Your task to perform on an android device: Clear the cart on amazon. Add alienware aurora to the cart on amazon Image 0: 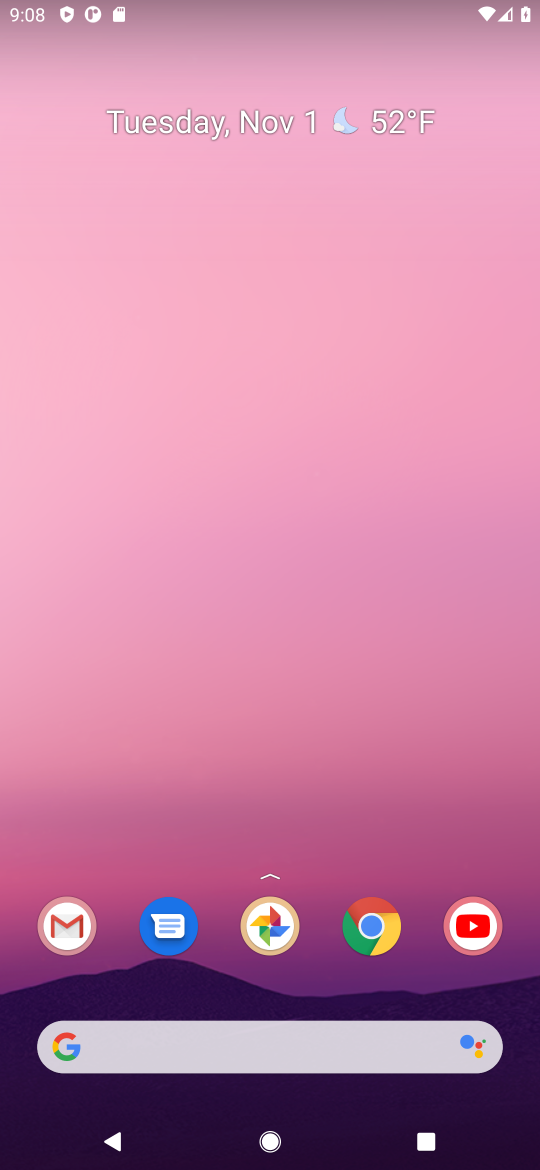
Step 0: click (380, 926)
Your task to perform on an android device: Clear the cart on amazon. Add alienware aurora to the cart on amazon Image 1: 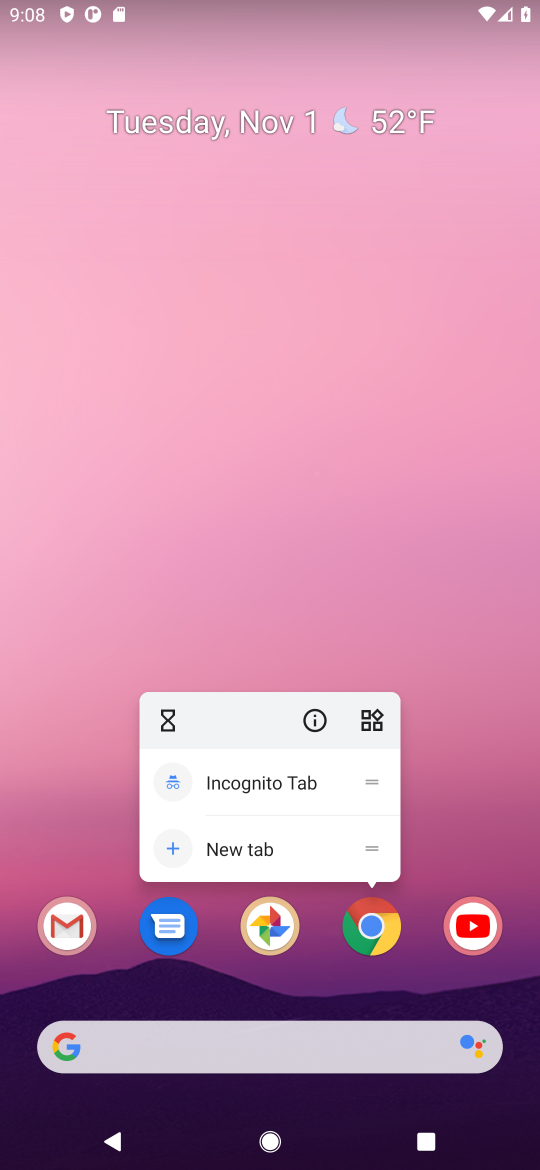
Step 1: click (365, 931)
Your task to perform on an android device: Clear the cart on amazon. Add alienware aurora to the cart on amazon Image 2: 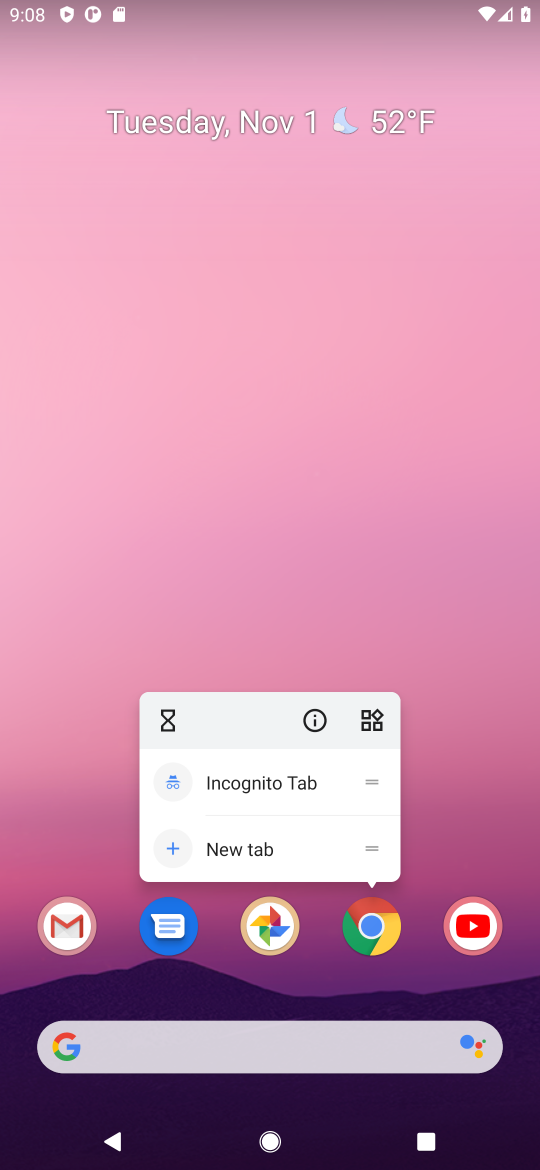
Step 2: click (364, 924)
Your task to perform on an android device: Clear the cart on amazon. Add alienware aurora to the cart on amazon Image 3: 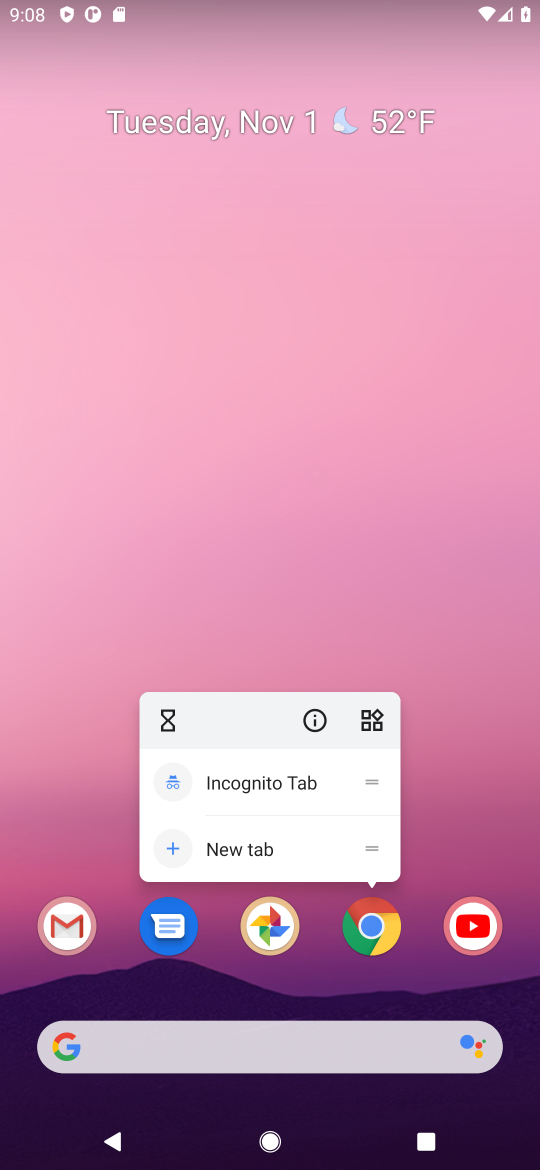
Step 3: click (364, 924)
Your task to perform on an android device: Clear the cart on amazon. Add alienware aurora to the cart on amazon Image 4: 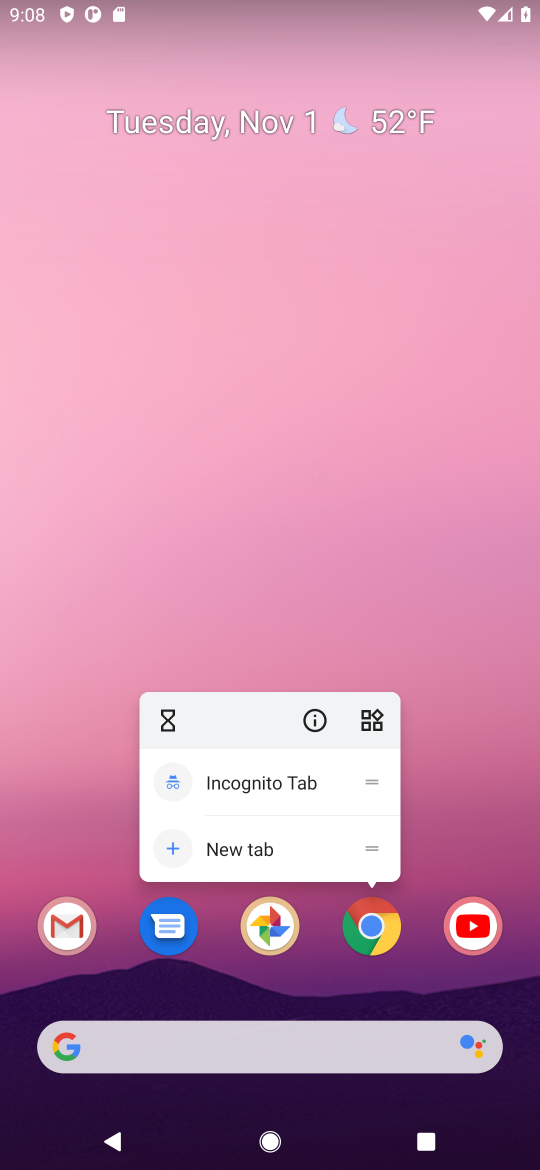
Step 4: press home button
Your task to perform on an android device: Clear the cart on amazon. Add alienware aurora to the cart on amazon Image 5: 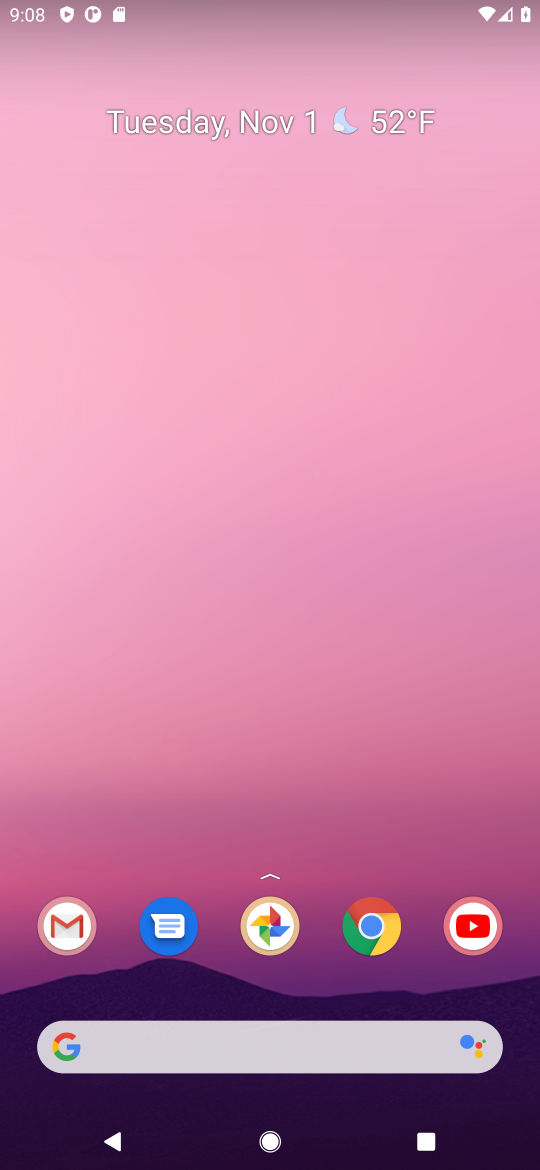
Step 5: press home button
Your task to perform on an android device: Clear the cart on amazon. Add alienware aurora to the cart on amazon Image 6: 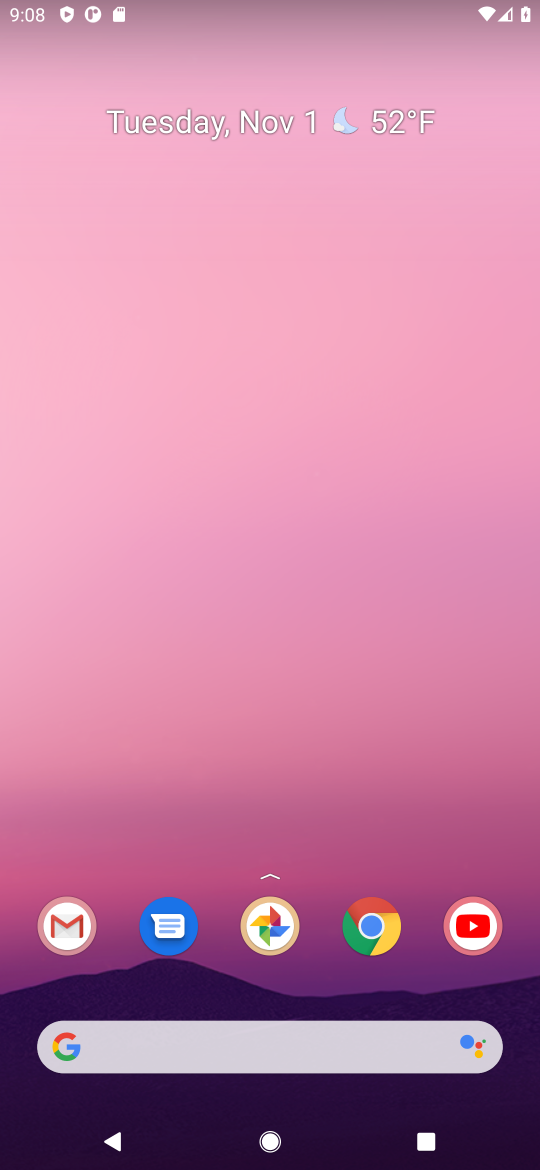
Step 6: press back button
Your task to perform on an android device: Clear the cart on amazon. Add alienware aurora to the cart on amazon Image 7: 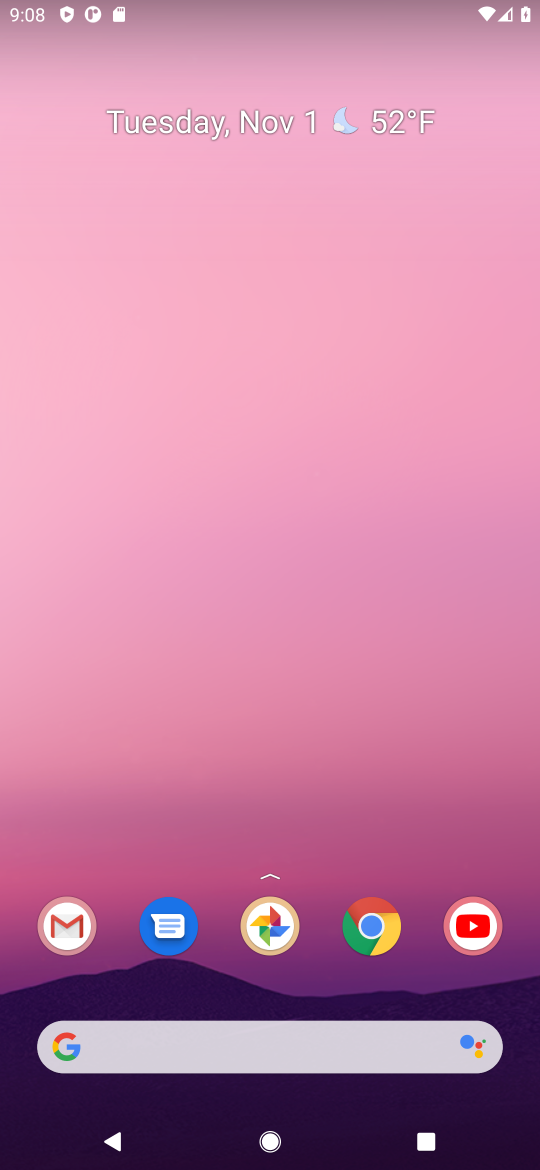
Step 7: press back button
Your task to perform on an android device: Clear the cart on amazon. Add alienware aurora to the cart on amazon Image 8: 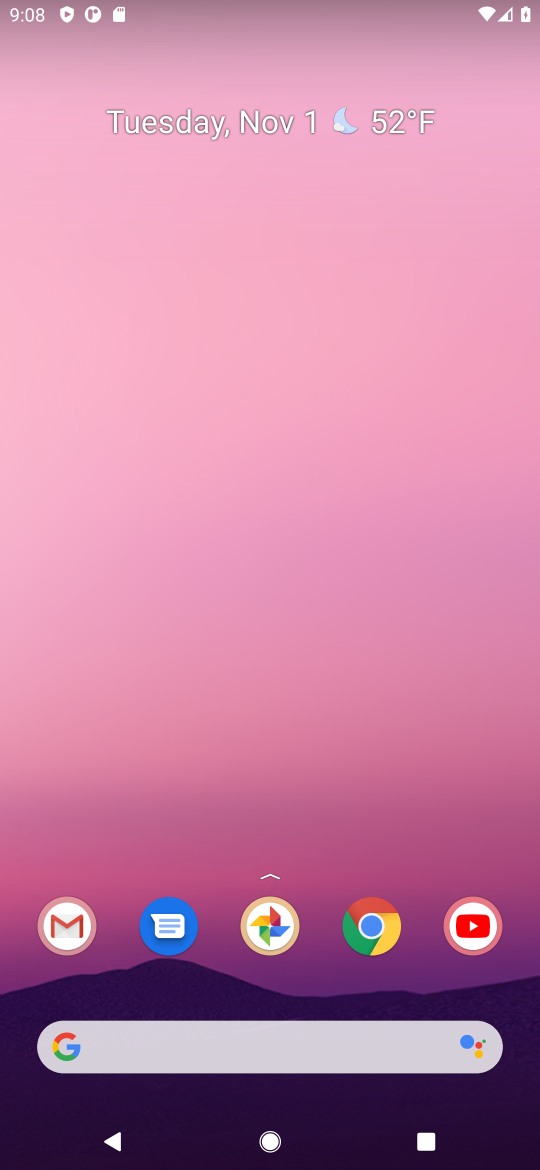
Step 8: press home button
Your task to perform on an android device: Clear the cart on amazon. Add alienware aurora to the cart on amazon Image 9: 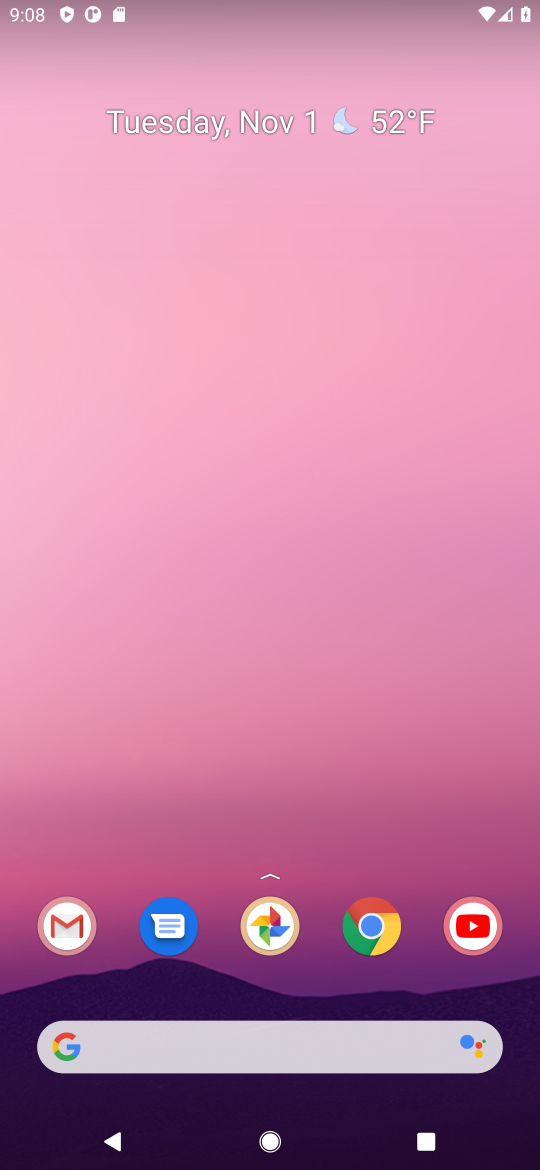
Step 9: press home button
Your task to perform on an android device: Clear the cart on amazon. Add alienware aurora to the cart on amazon Image 10: 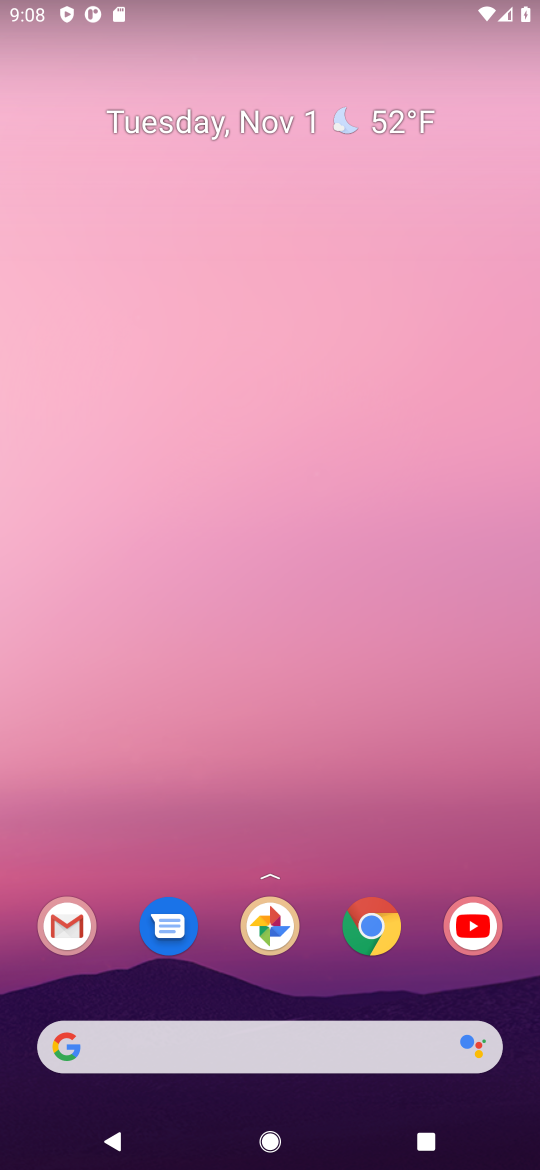
Step 10: click (383, 941)
Your task to perform on an android device: Clear the cart on amazon. Add alienware aurora to the cart on amazon Image 11: 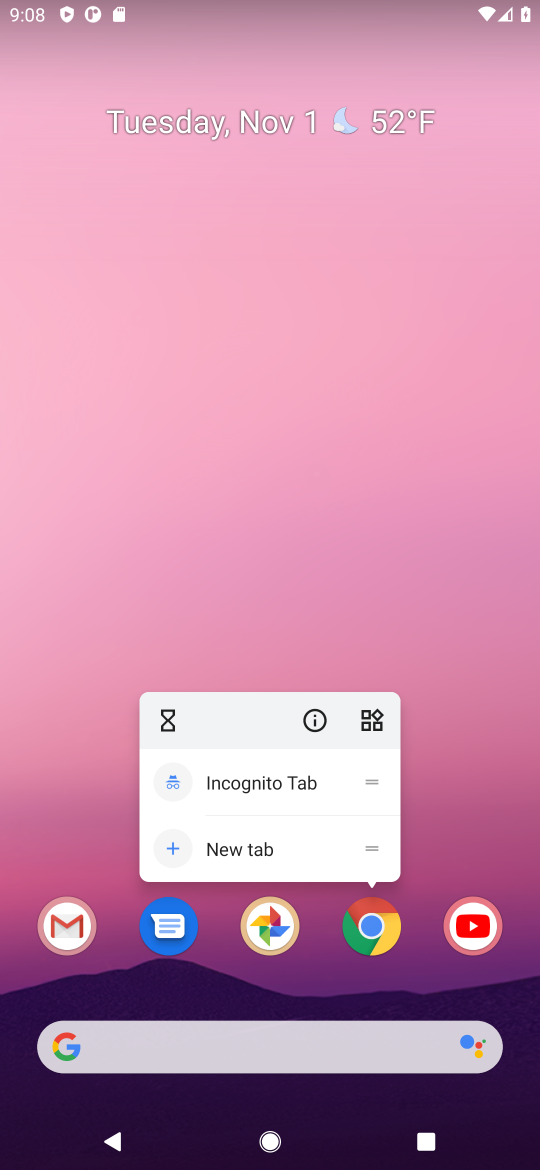
Step 11: click (364, 901)
Your task to perform on an android device: Clear the cart on amazon. Add alienware aurora to the cart on amazon Image 12: 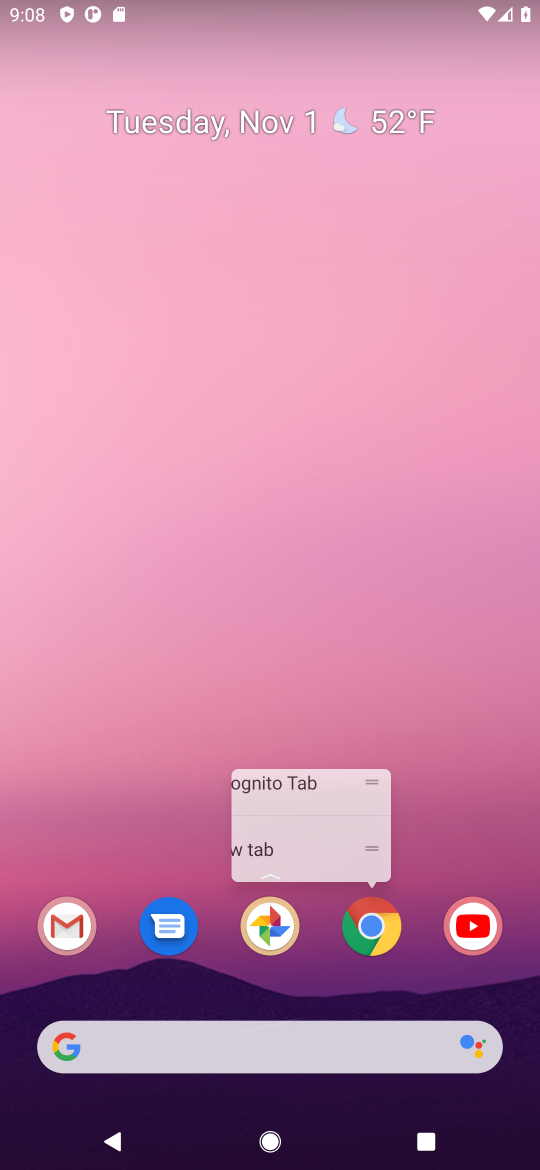
Step 12: click (368, 916)
Your task to perform on an android device: Clear the cart on amazon. Add alienware aurora to the cart on amazon Image 13: 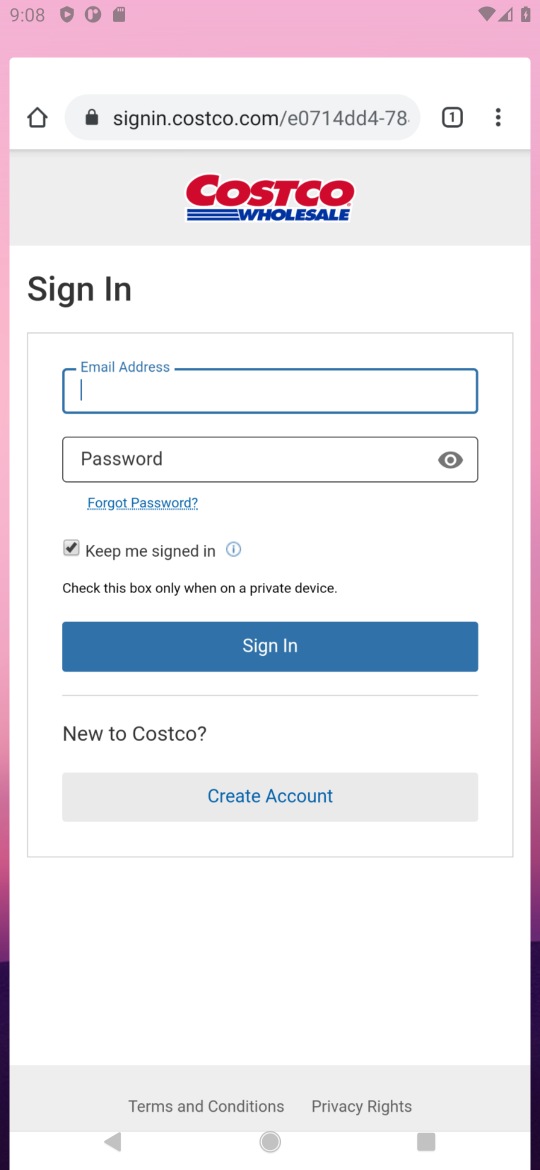
Step 13: click (372, 953)
Your task to perform on an android device: Clear the cart on amazon. Add alienware aurora to the cart on amazon Image 14: 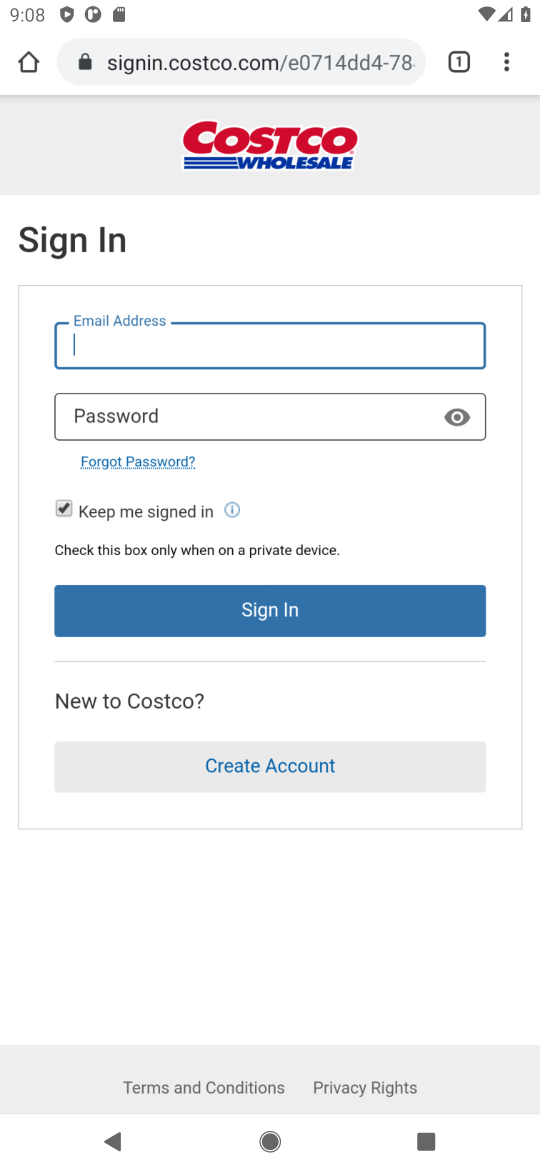
Step 14: click (374, 953)
Your task to perform on an android device: Clear the cart on amazon. Add alienware aurora to the cart on amazon Image 15: 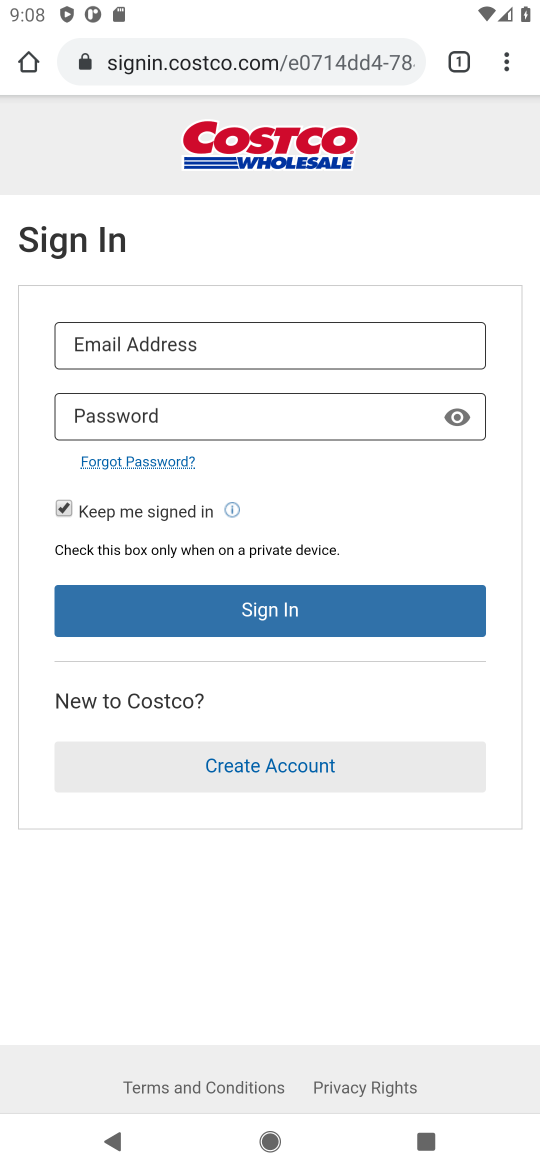
Step 15: click (159, 63)
Your task to perform on an android device: Clear the cart on amazon. Add alienware aurora to the cart on amazon Image 16: 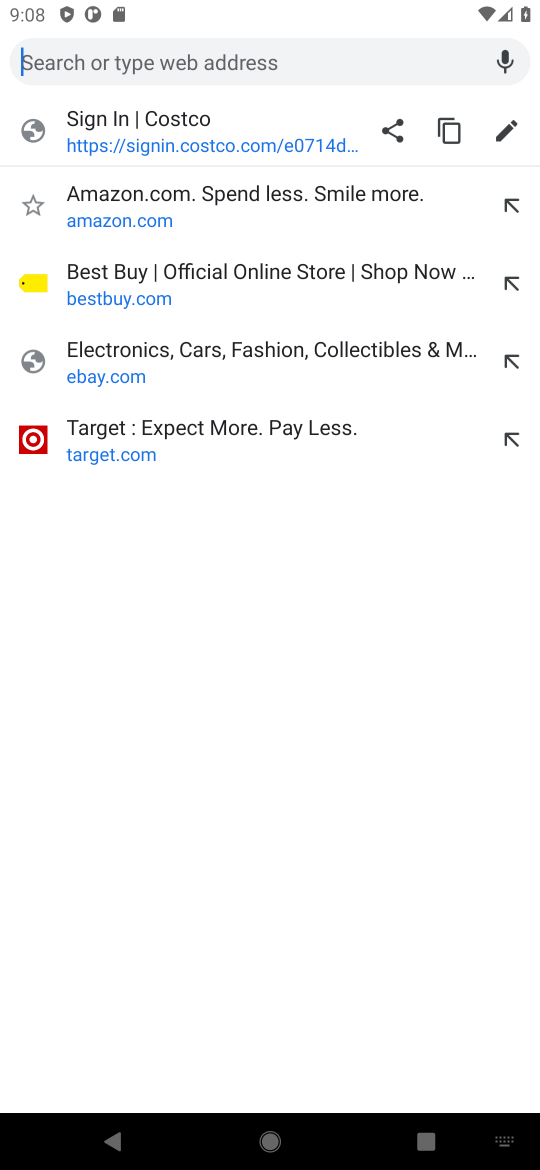
Step 16: click (158, 219)
Your task to perform on an android device: Clear the cart on amazon. Add alienware aurora to the cart on amazon Image 17: 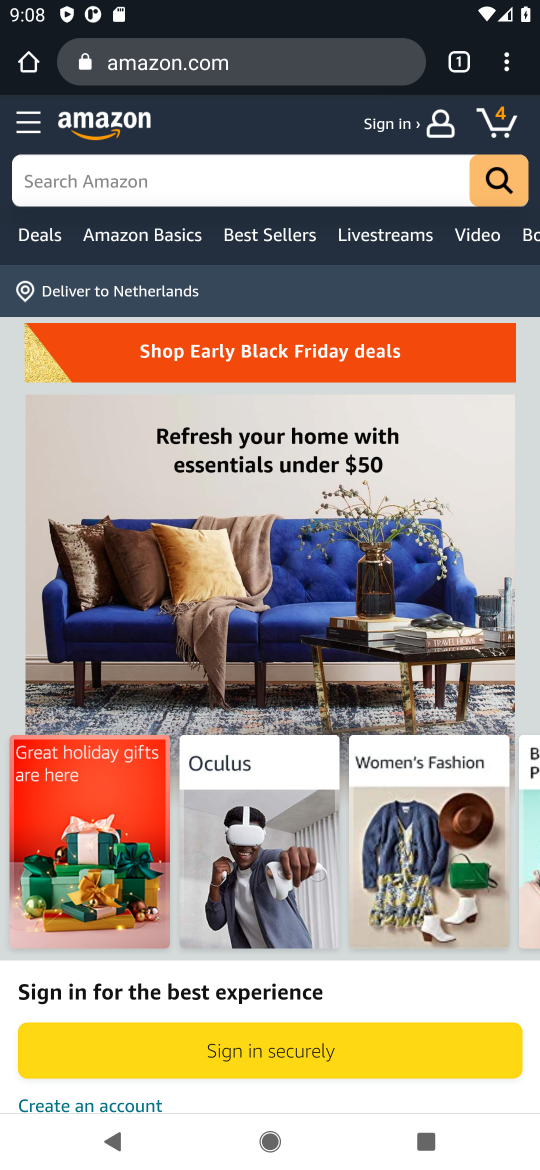
Step 17: click (122, 161)
Your task to perform on an android device: Clear the cart on amazon. Add alienware aurora to the cart on amazon Image 18: 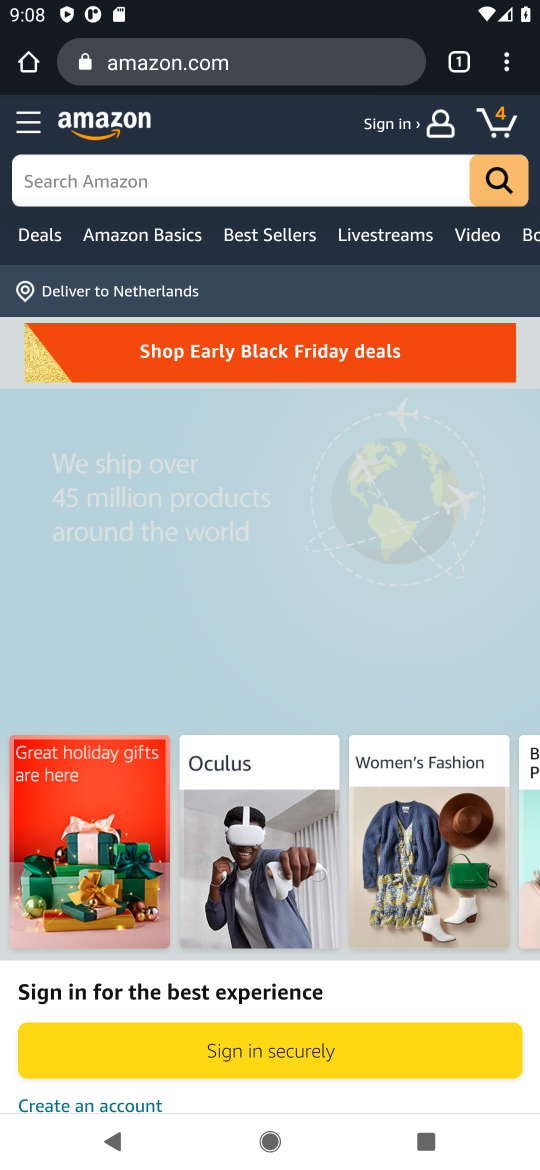
Step 18: click (122, 182)
Your task to perform on an android device: Clear the cart on amazon. Add alienware aurora to the cart on amazon Image 19: 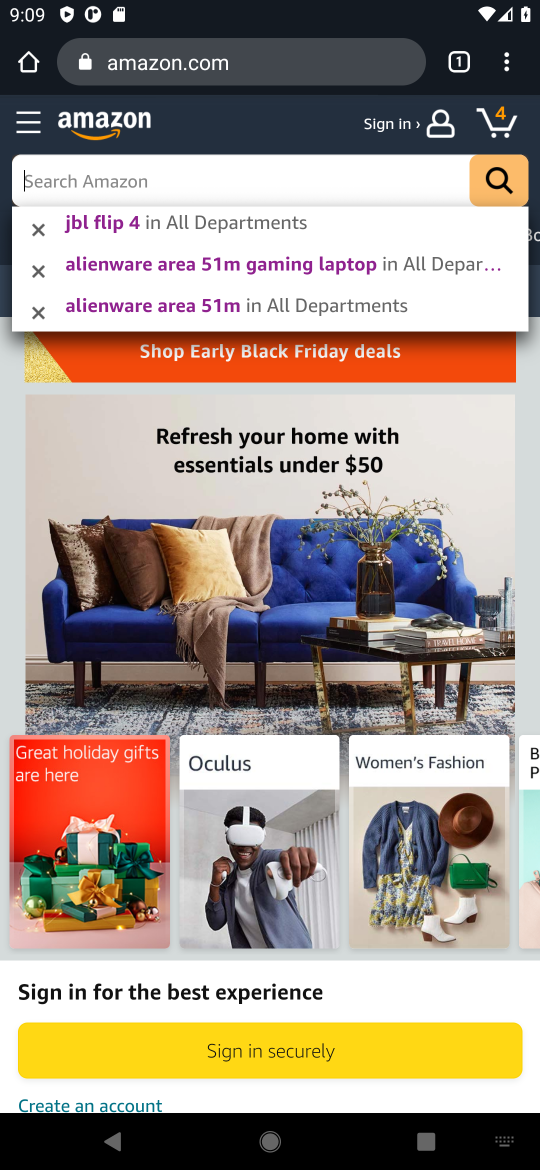
Step 19: type "alienware aurora"
Your task to perform on an android device: Clear the cart on amazon. Add alienware aurora to the cart on amazon Image 20: 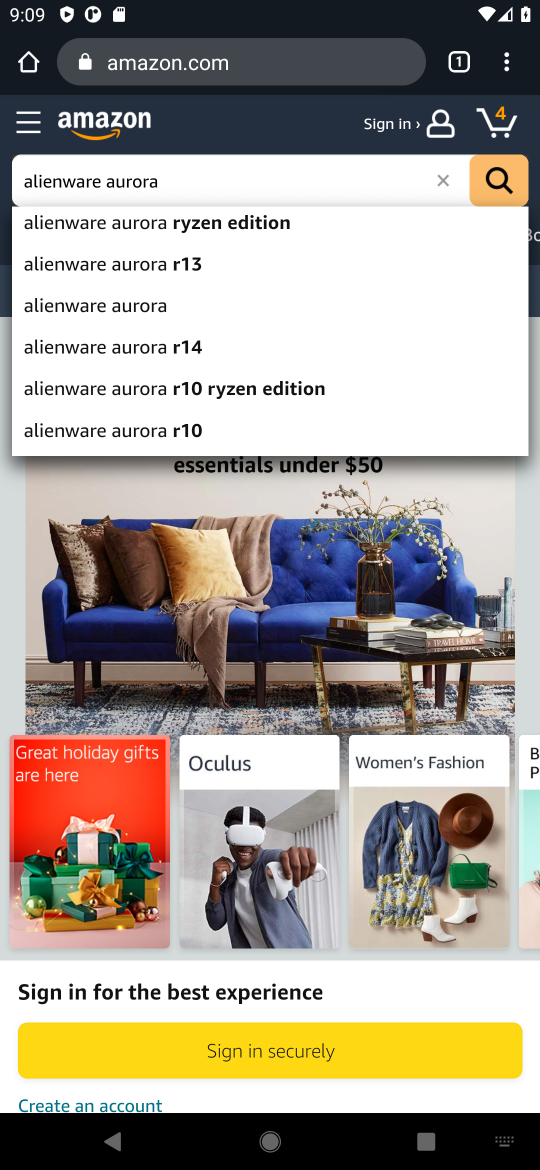
Step 20: click (114, 271)
Your task to perform on an android device: Clear the cart on amazon. Add alienware aurora to the cart on amazon Image 21: 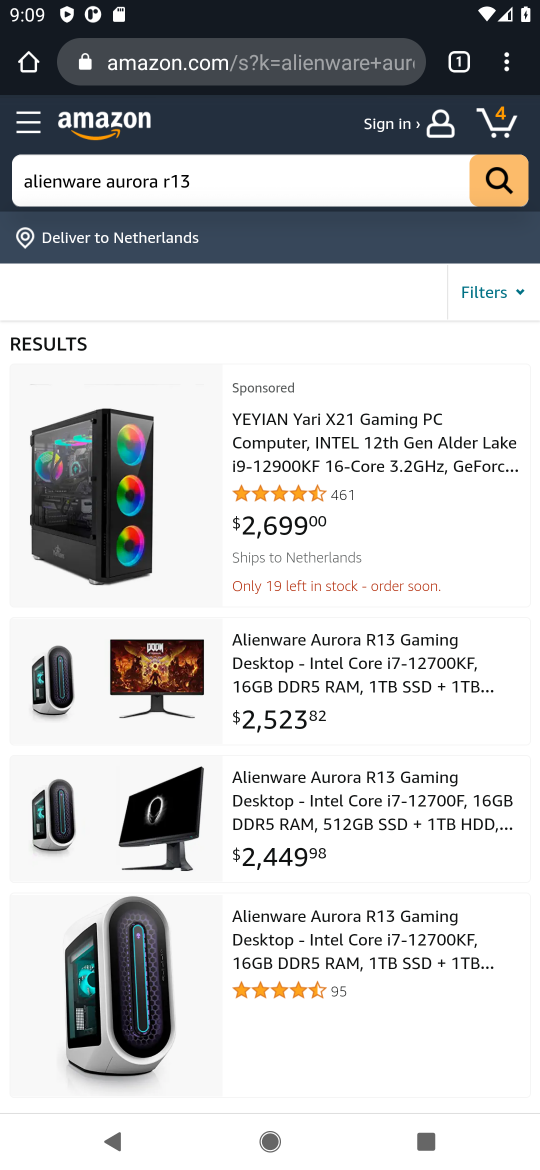
Step 21: click (340, 698)
Your task to perform on an android device: Clear the cart on amazon. Add alienware aurora to the cart on amazon Image 22: 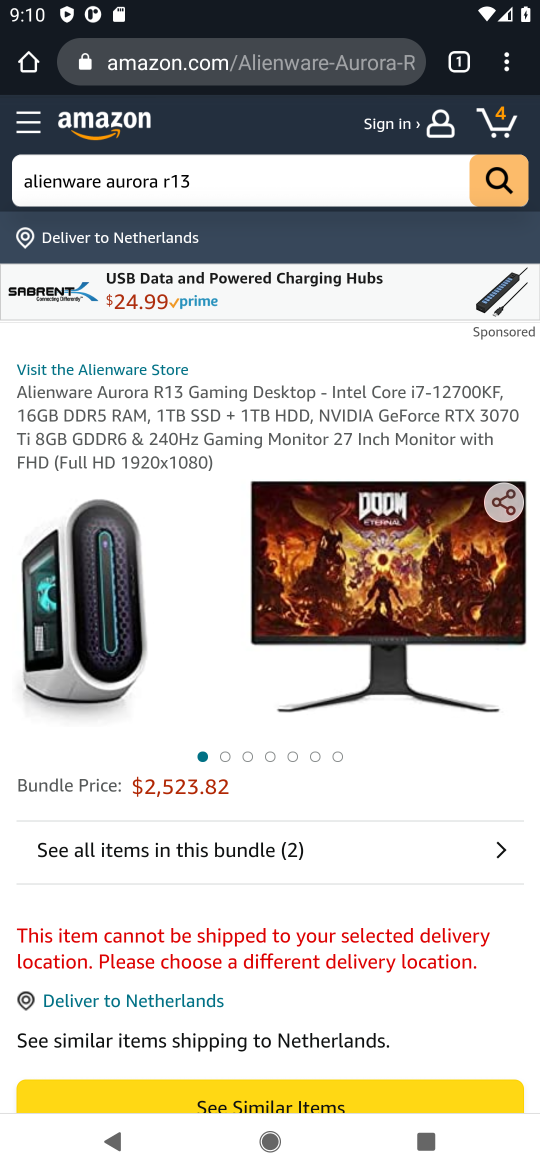
Step 22: drag from (178, 798) to (199, 444)
Your task to perform on an android device: Clear the cart on amazon. Add alienware aurora to the cart on amazon Image 23: 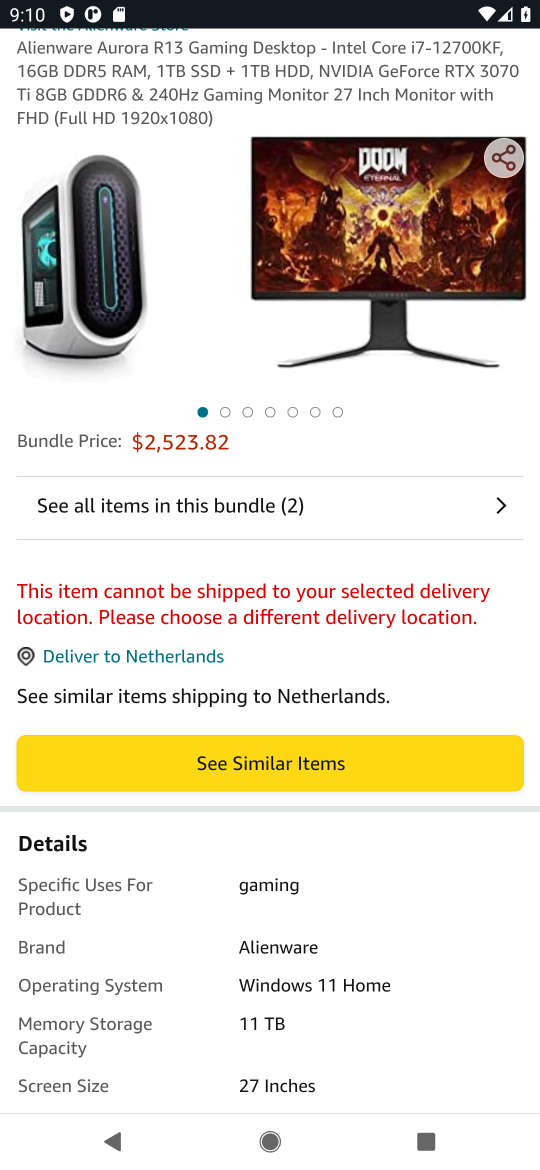
Step 23: drag from (333, 938) to (336, 528)
Your task to perform on an android device: Clear the cart on amazon. Add alienware aurora to the cart on amazon Image 24: 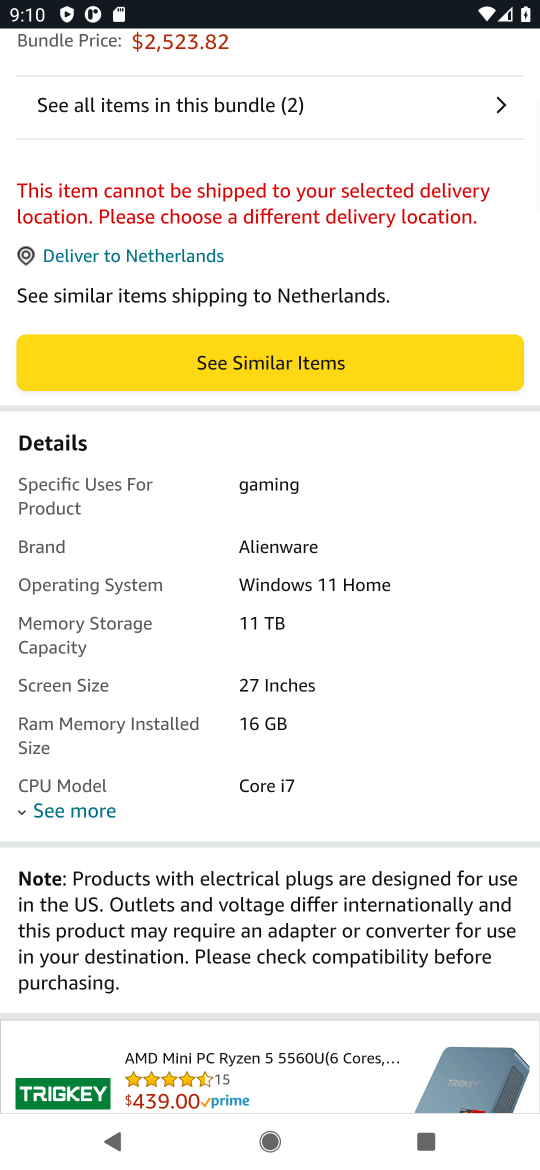
Step 24: drag from (389, 884) to (409, 428)
Your task to perform on an android device: Clear the cart on amazon. Add alienware aurora to the cart on amazon Image 25: 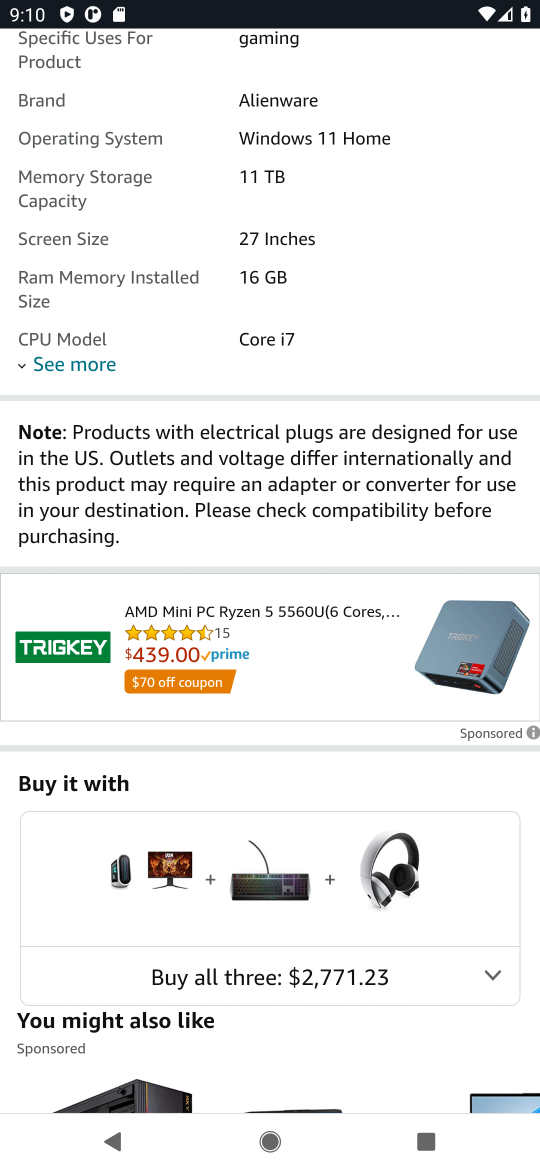
Step 25: drag from (344, 904) to (237, 373)
Your task to perform on an android device: Clear the cart on amazon. Add alienware aurora to the cart on amazon Image 26: 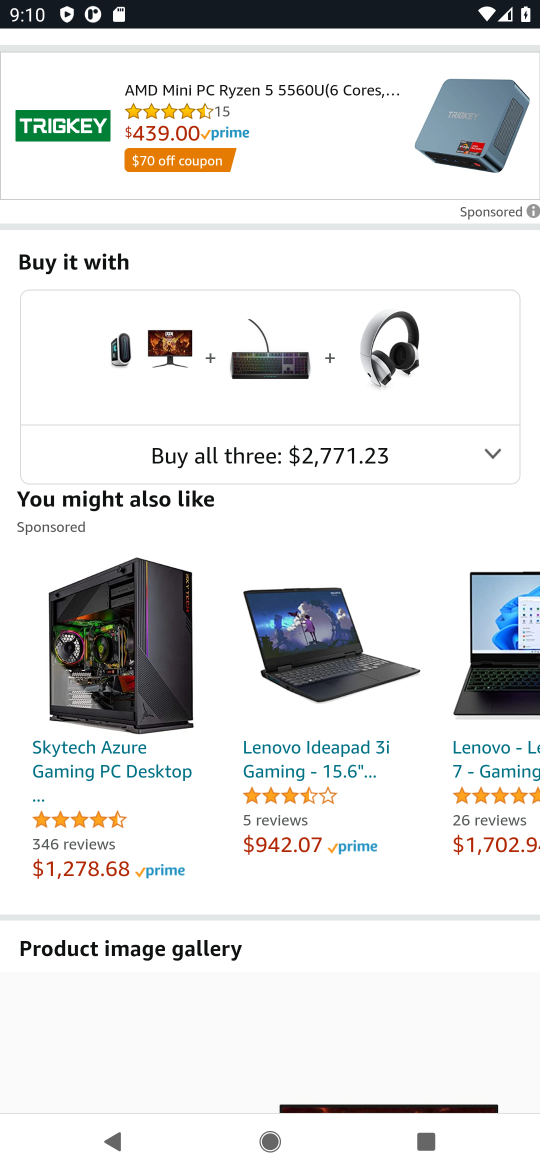
Step 26: drag from (243, 836) to (242, 580)
Your task to perform on an android device: Clear the cart on amazon. Add alienware aurora to the cart on amazon Image 27: 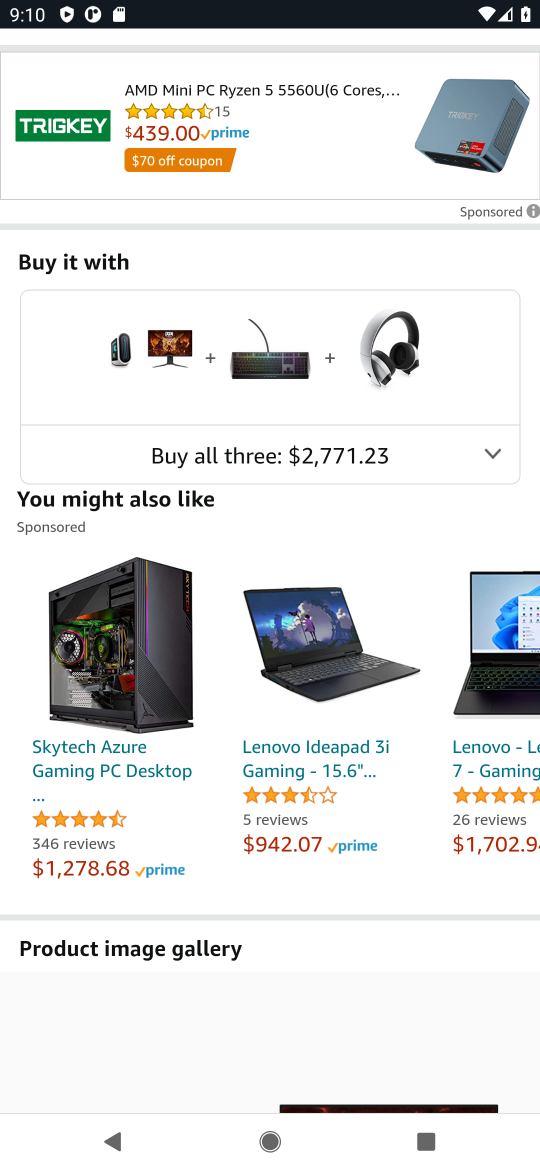
Step 27: drag from (273, 436) to (242, 833)
Your task to perform on an android device: Clear the cart on amazon. Add alienware aurora to the cart on amazon Image 28: 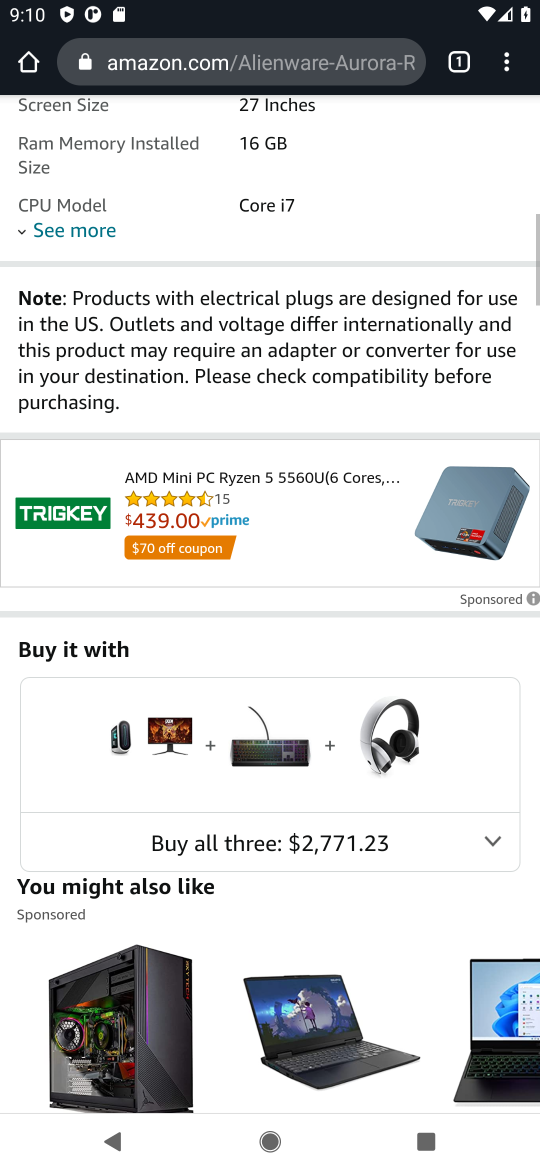
Step 28: drag from (133, 605) to (118, 902)
Your task to perform on an android device: Clear the cart on amazon. Add alienware aurora to the cart on amazon Image 29: 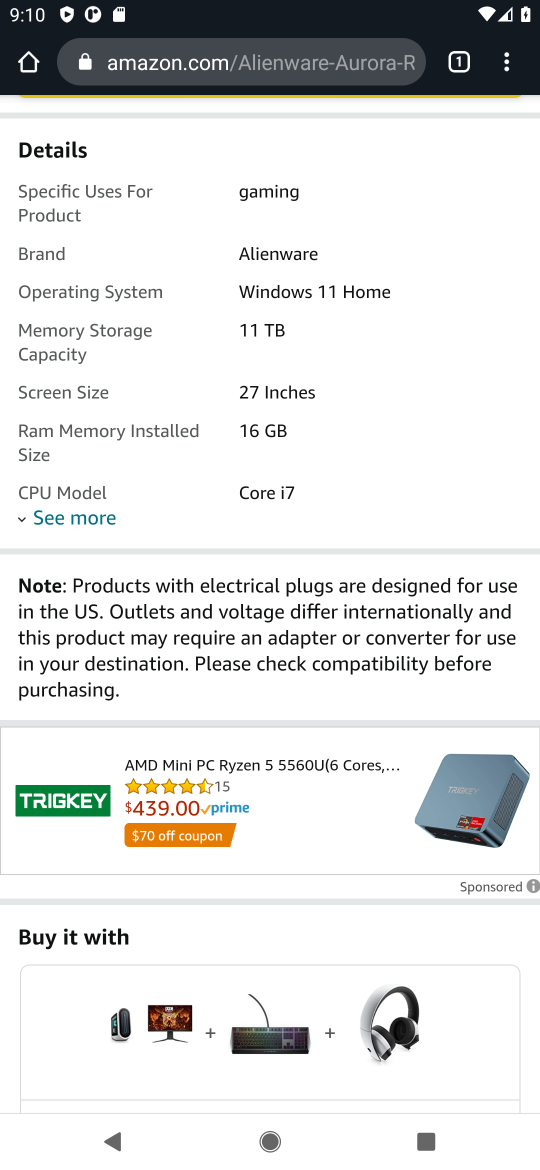
Step 29: drag from (214, 432) to (18, 1001)
Your task to perform on an android device: Clear the cart on amazon. Add alienware aurora to the cart on amazon Image 30: 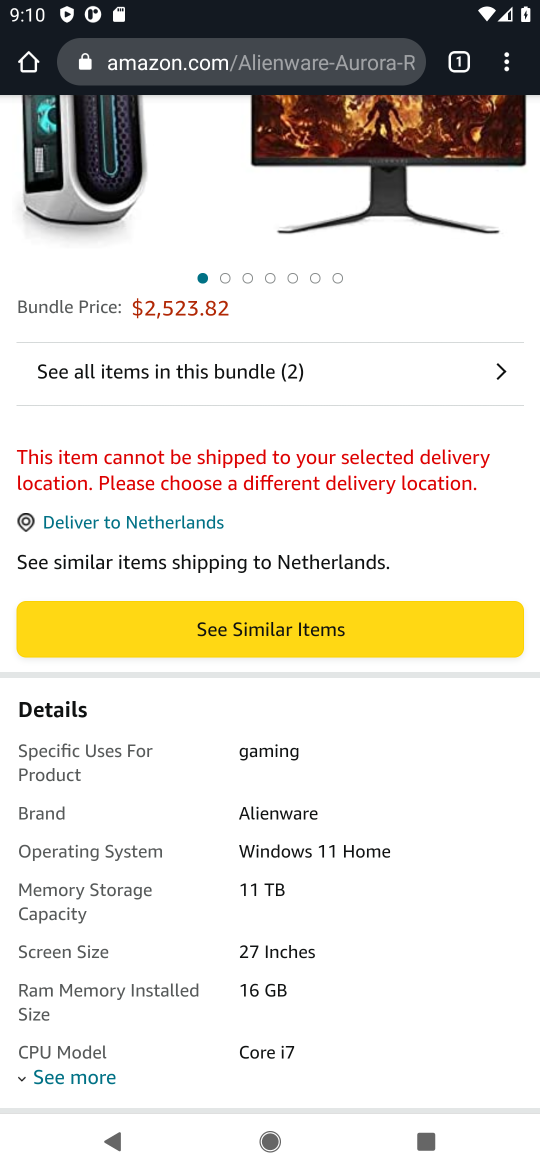
Step 30: drag from (285, 571) to (179, 1000)
Your task to perform on an android device: Clear the cart on amazon. Add alienware aurora to the cart on amazon Image 31: 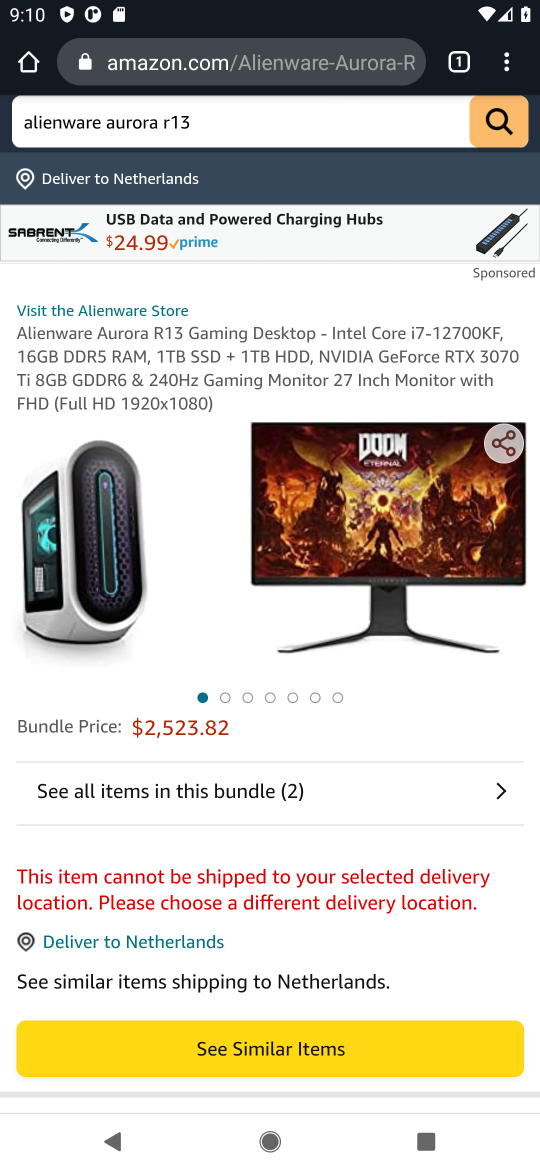
Step 31: click (271, 718)
Your task to perform on an android device: Clear the cart on amazon. Add alienware aurora to the cart on amazon Image 32: 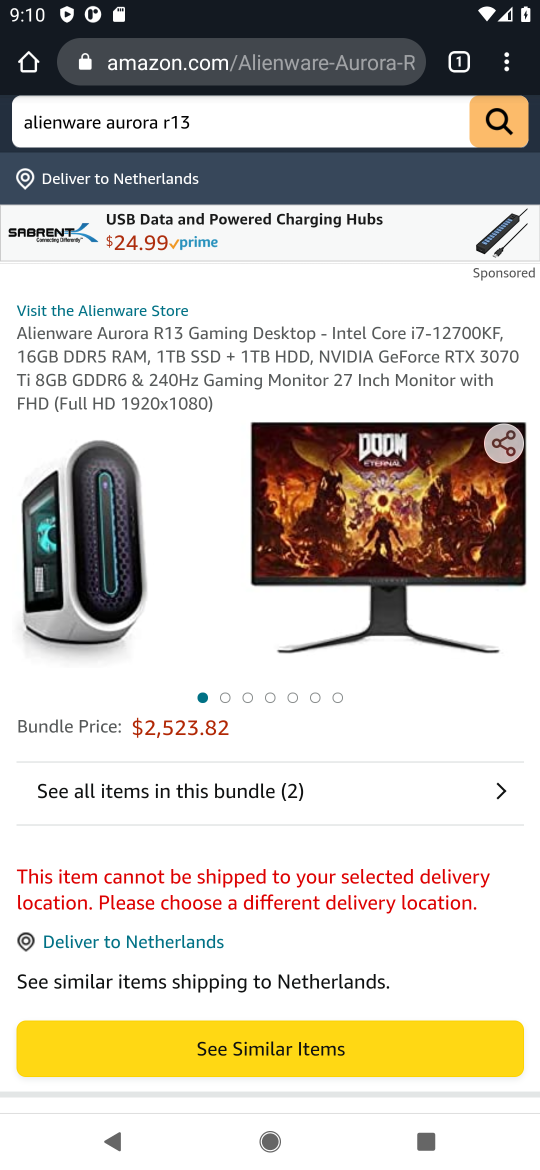
Step 32: click (269, 1042)
Your task to perform on an android device: Clear the cart on amazon. Add alienware aurora to the cart on amazon Image 33: 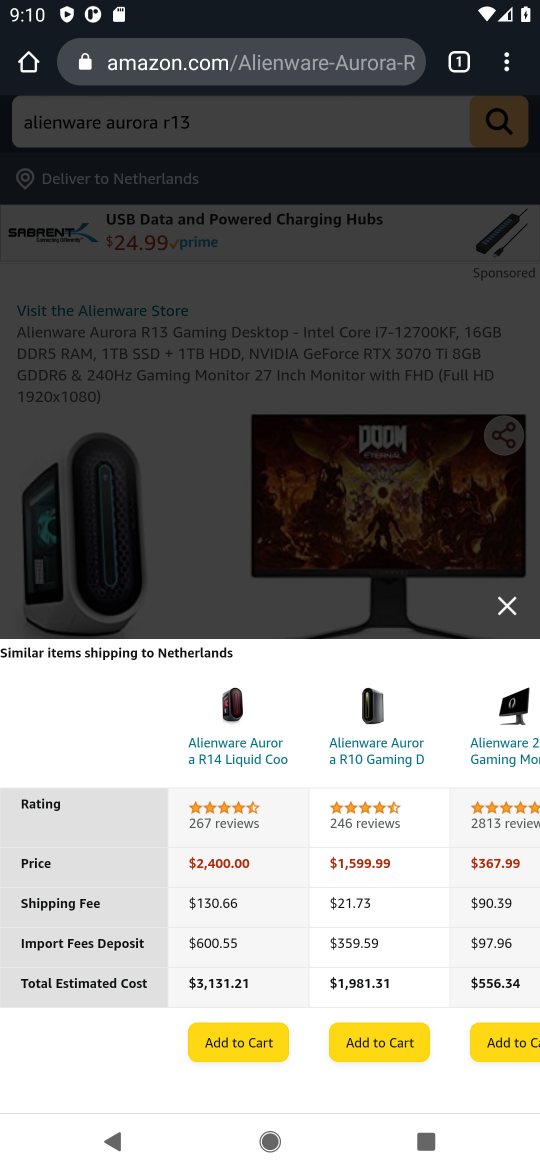
Step 33: click (506, 614)
Your task to perform on an android device: Clear the cart on amazon. Add alienware aurora to the cart on amazon Image 34: 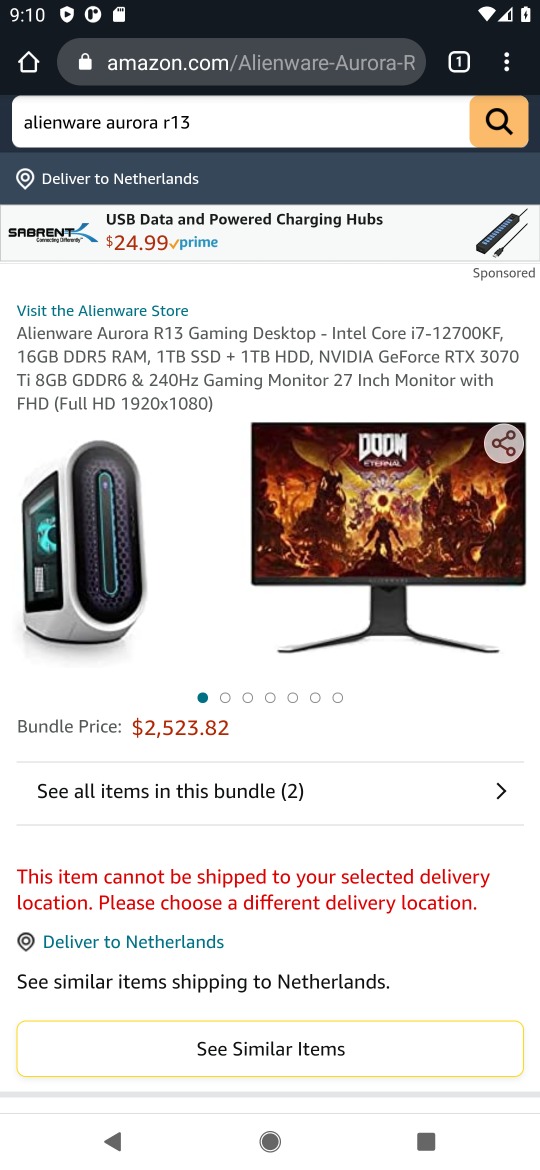
Step 34: click (502, 763)
Your task to perform on an android device: Clear the cart on amazon. Add alienware aurora to the cart on amazon Image 35: 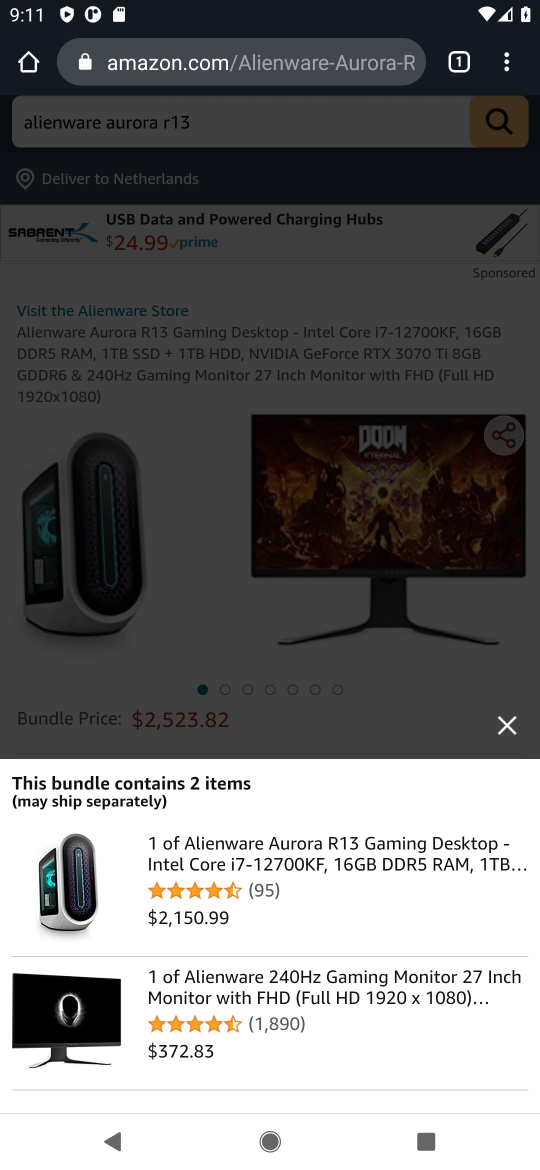
Step 35: click (253, 844)
Your task to perform on an android device: Clear the cart on amazon. Add alienware aurora to the cart on amazon Image 36: 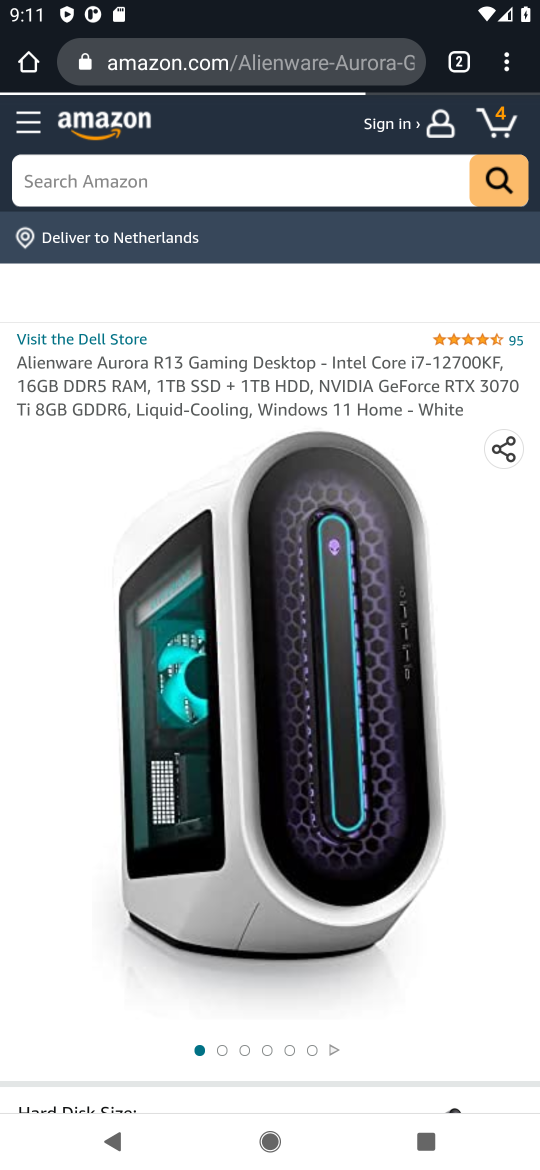
Step 36: drag from (175, 873) to (170, 324)
Your task to perform on an android device: Clear the cart on amazon. Add alienware aurora to the cart on amazon Image 37: 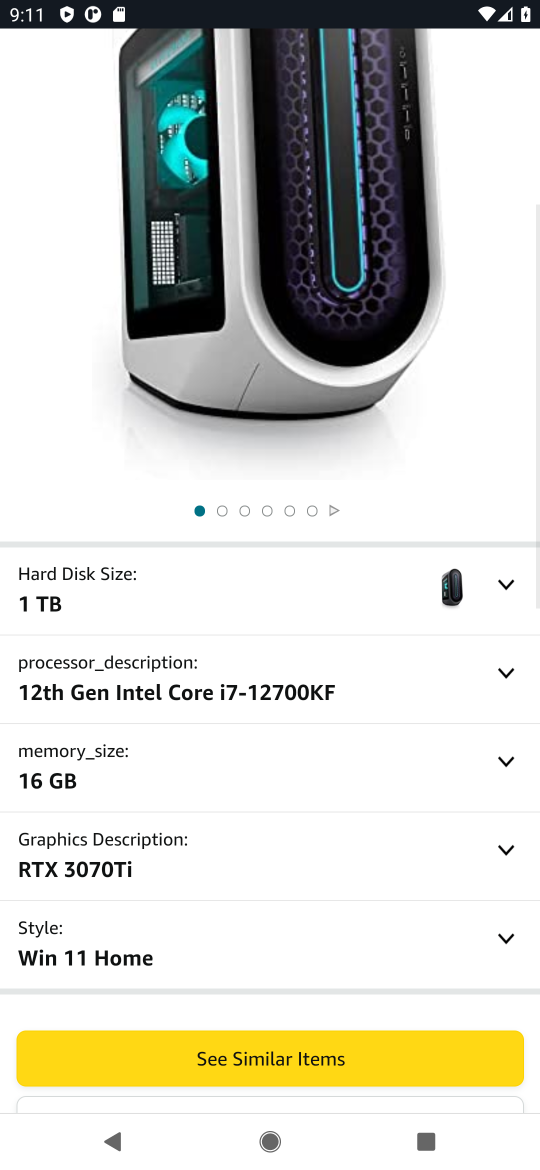
Step 37: drag from (257, 863) to (264, 565)
Your task to perform on an android device: Clear the cart on amazon. Add alienware aurora to the cart on amazon Image 38: 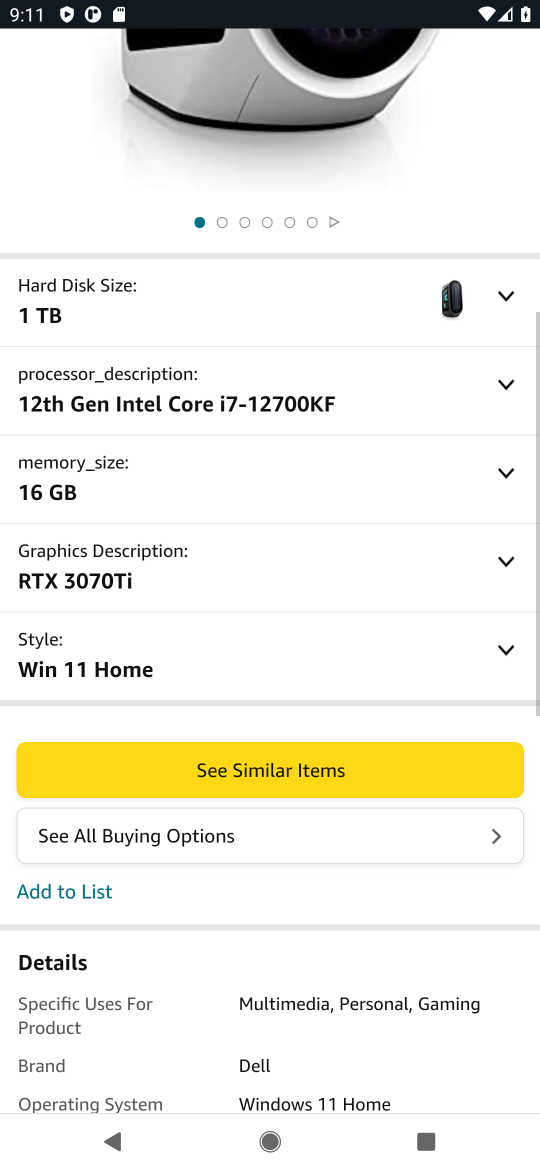
Step 38: drag from (252, 906) to (250, 721)
Your task to perform on an android device: Clear the cart on amazon. Add alienware aurora to the cart on amazon Image 39: 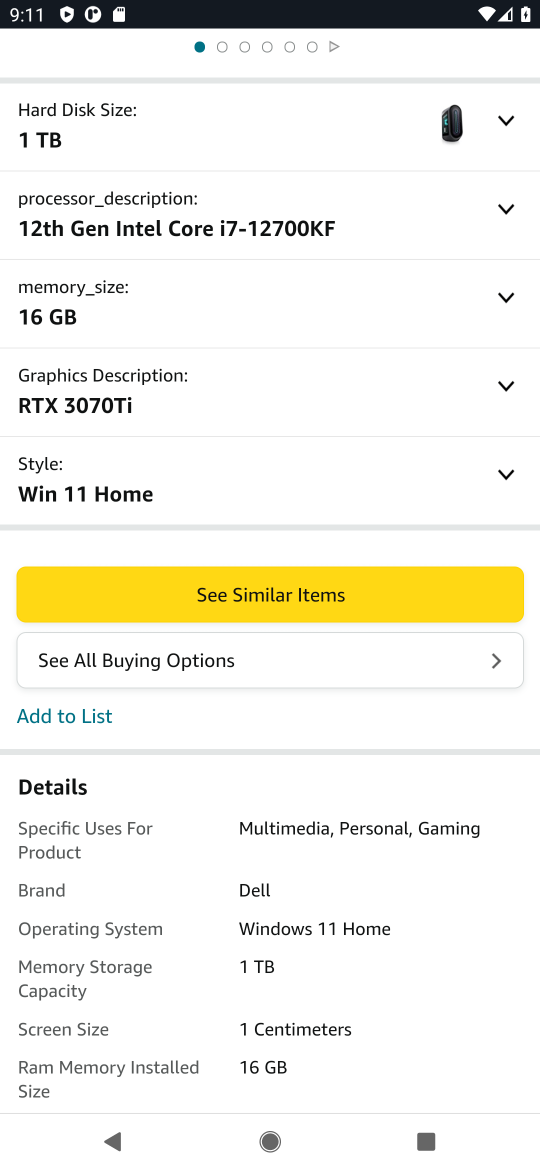
Step 39: drag from (189, 921) to (256, 569)
Your task to perform on an android device: Clear the cart on amazon. Add alienware aurora to the cart on amazon Image 40: 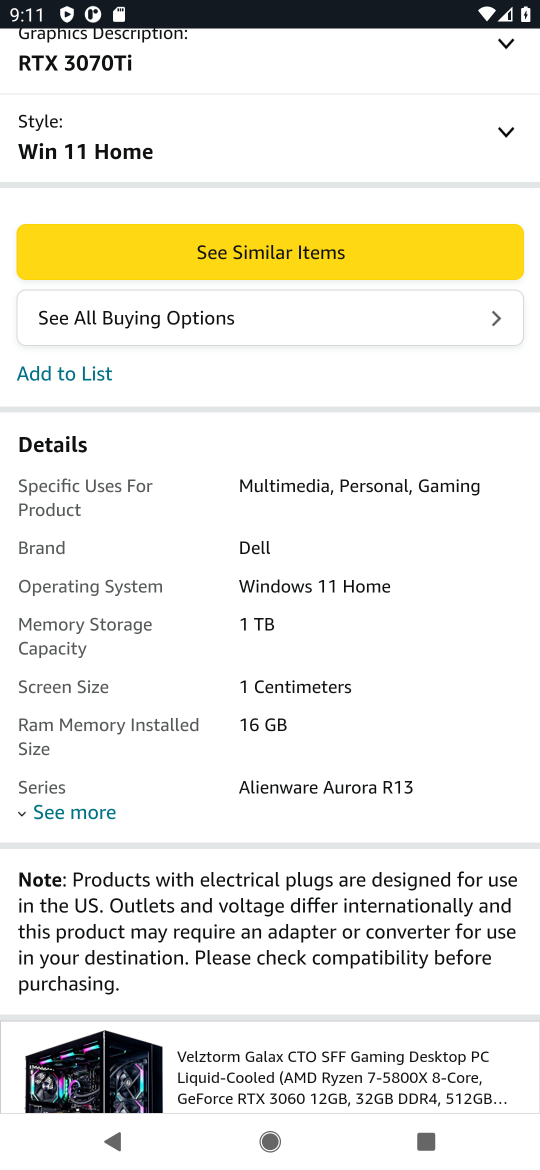
Step 40: drag from (273, 894) to (283, 454)
Your task to perform on an android device: Clear the cart on amazon. Add alienware aurora to the cart on amazon Image 41: 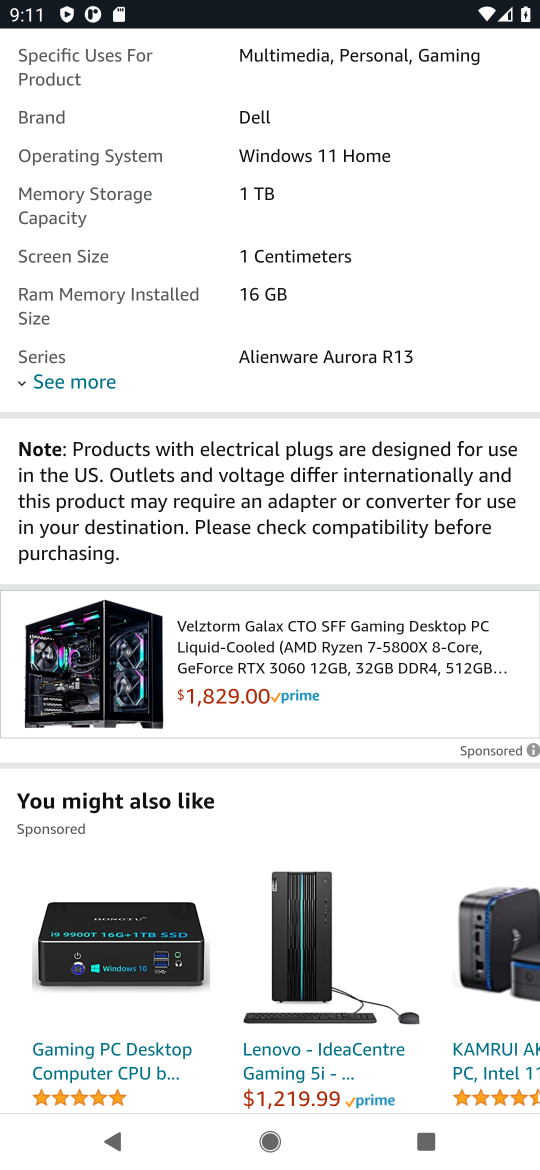
Step 41: drag from (301, 324) to (282, 775)
Your task to perform on an android device: Clear the cart on amazon. Add alienware aurora to the cart on amazon Image 42: 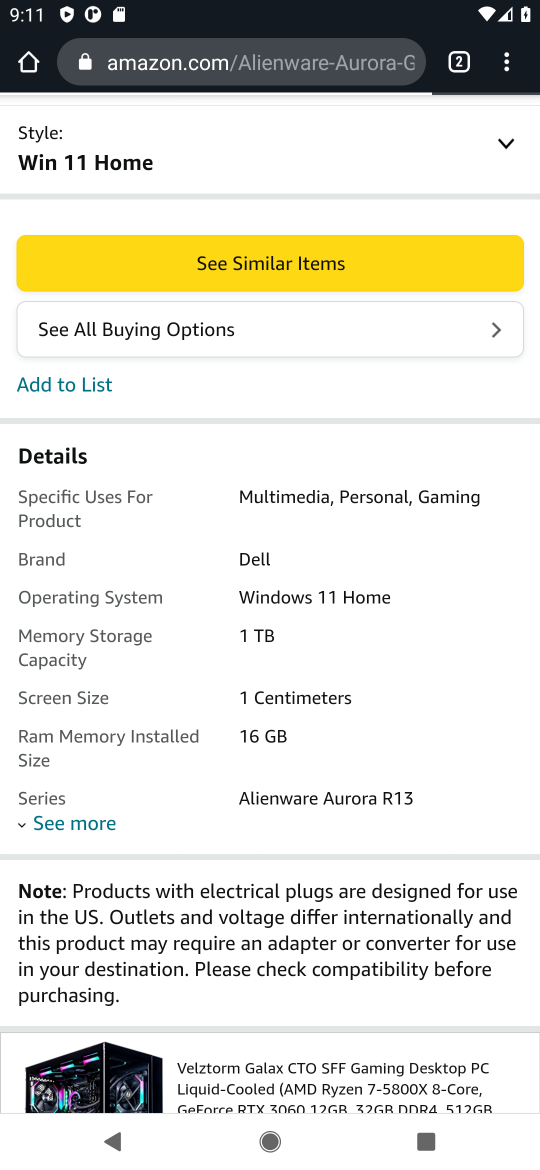
Step 42: drag from (250, 363) to (125, 771)
Your task to perform on an android device: Clear the cart on amazon. Add alienware aurora to the cart on amazon Image 43: 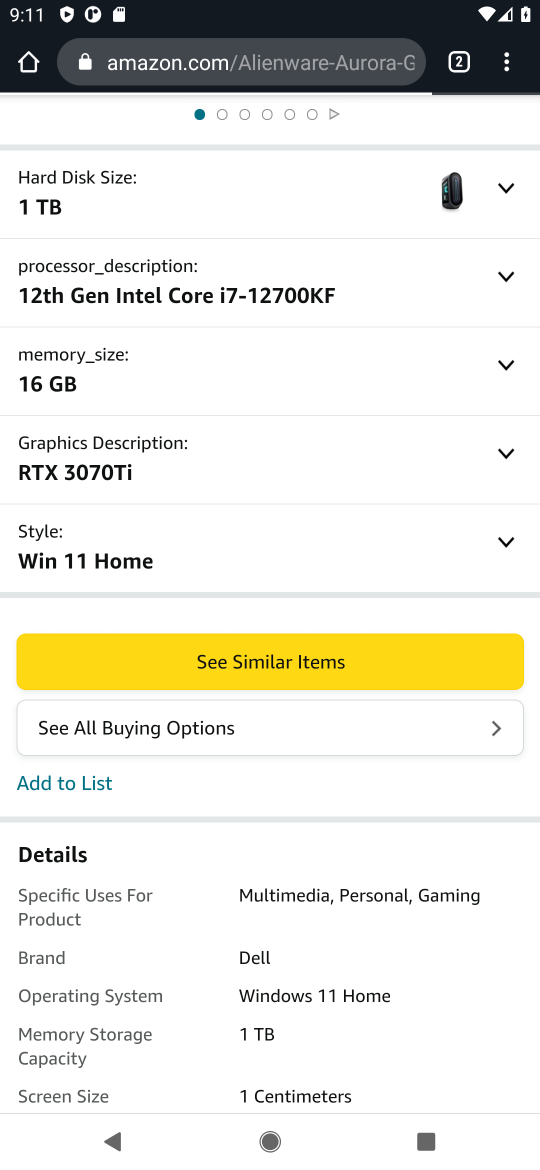
Step 43: click (256, 664)
Your task to perform on an android device: Clear the cart on amazon. Add alienware aurora to the cart on amazon Image 44: 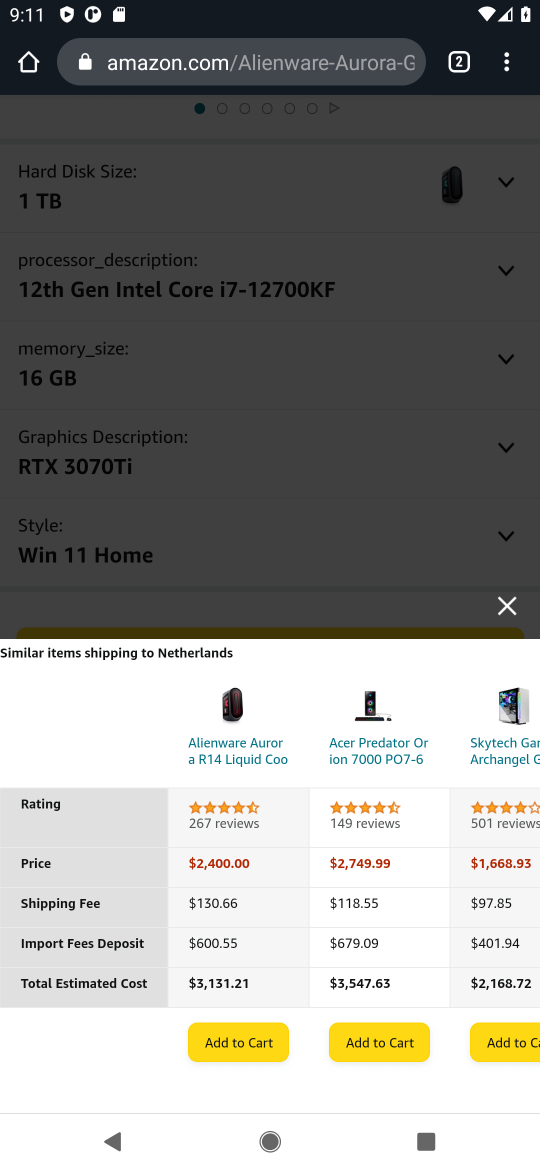
Step 44: click (504, 614)
Your task to perform on an android device: Clear the cart on amazon. Add alienware aurora to the cart on amazon Image 45: 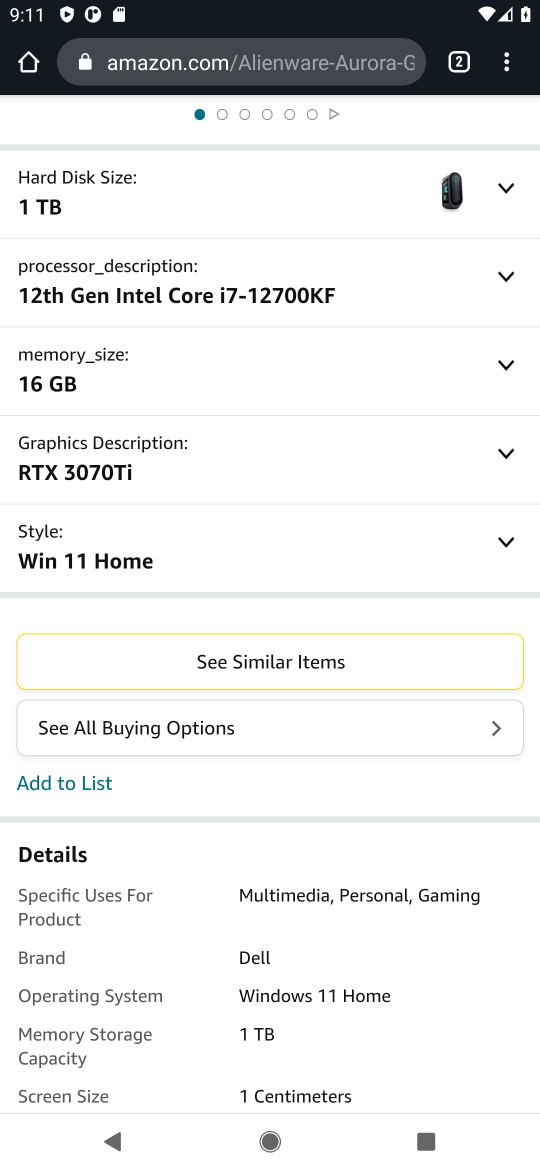
Step 45: drag from (295, 940) to (262, 390)
Your task to perform on an android device: Clear the cart on amazon. Add alienware aurora to the cart on amazon Image 46: 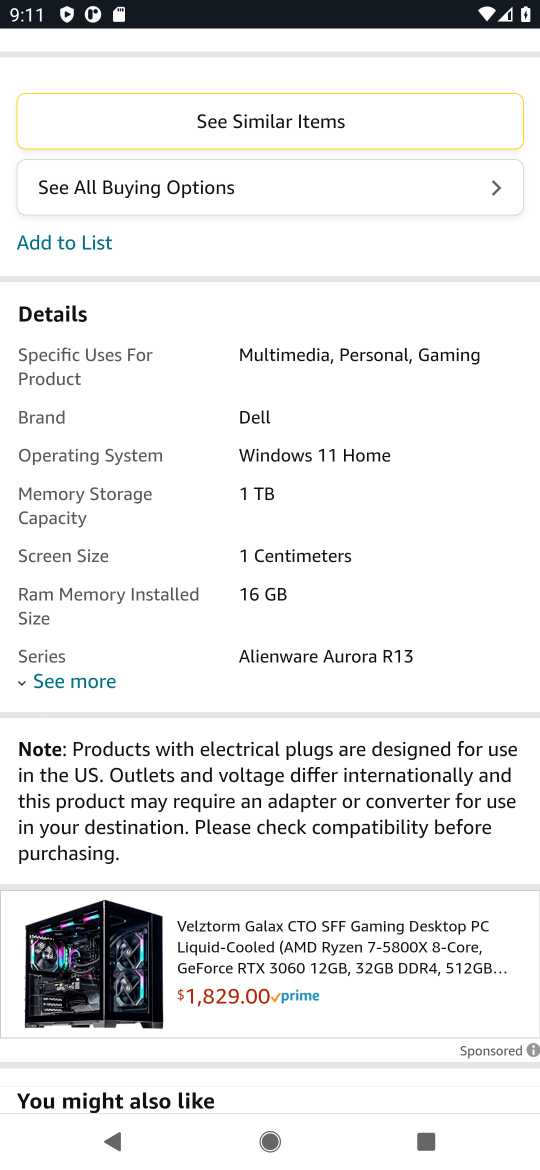
Step 46: drag from (361, 521) to (330, 851)
Your task to perform on an android device: Clear the cart on amazon. Add alienware aurora to the cart on amazon Image 47: 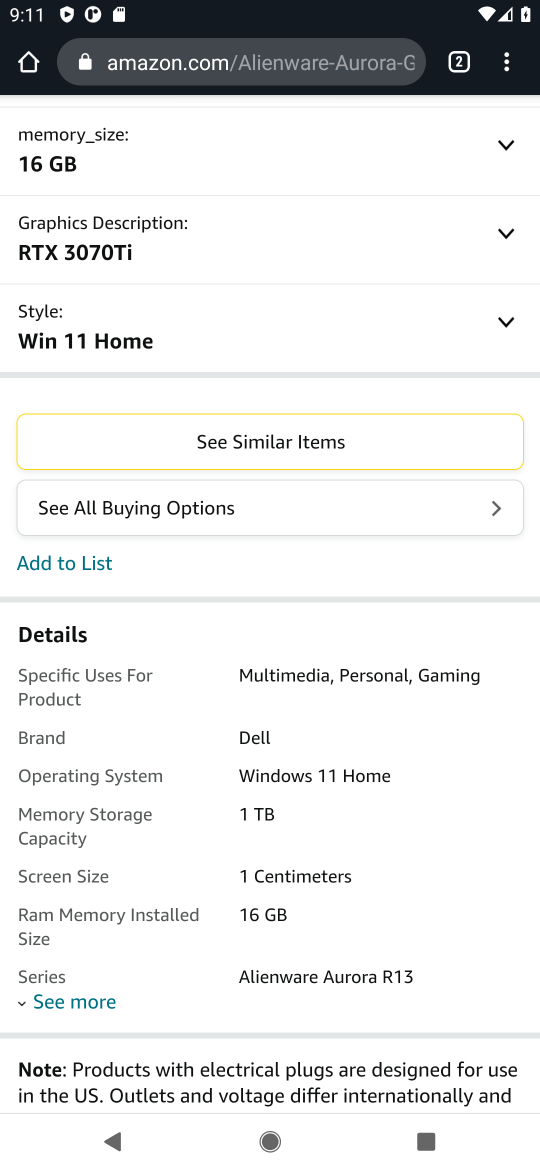
Step 47: drag from (220, 596) to (237, 949)
Your task to perform on an android device: Clear the cart on amazon. Add alienware aurora to the cart on amazon Image 48: 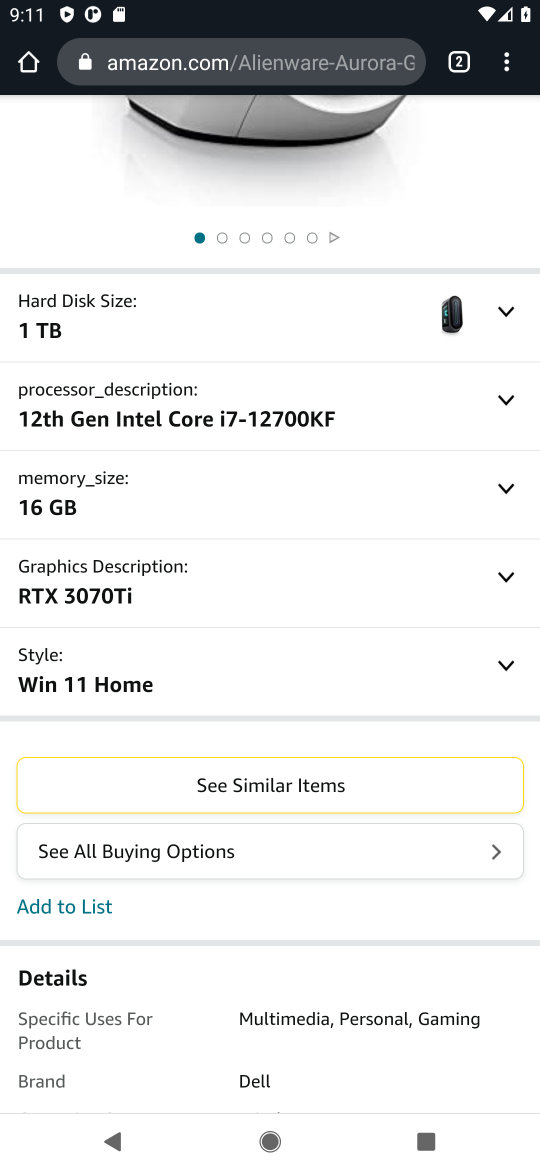
Step 48: drag from (336, 262) to (53, 898)
Your task to perform on an android device: Clear the cart on amazon. Add alienware aurora to the cart on amazon Image 49: 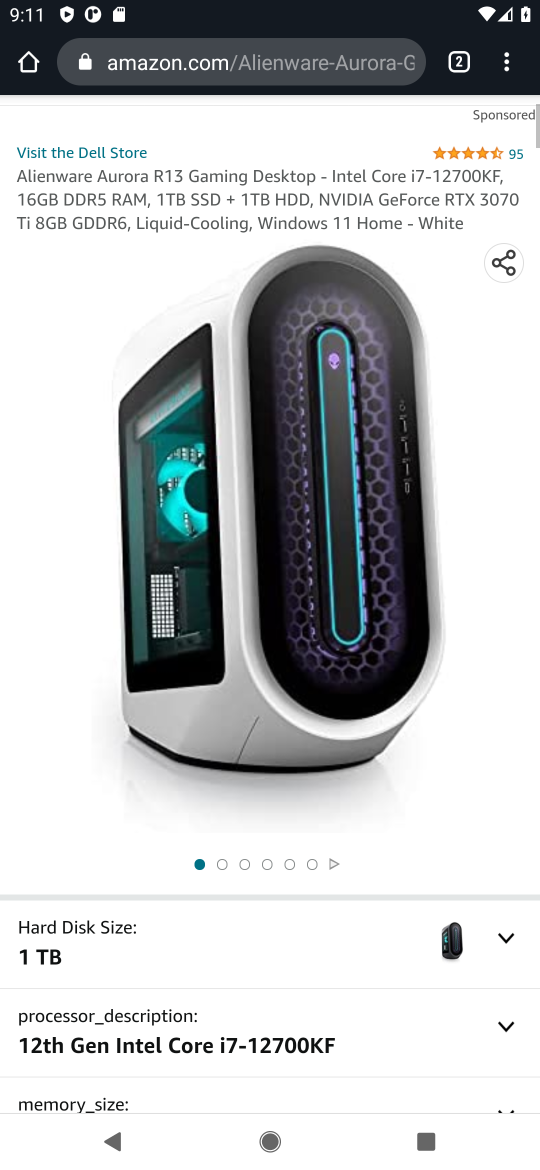
Step 49: drag from (111, 246) to (87, 846)
Your task to perform on an android device: Clear the cart on amazon. Add alienware aurora to the cart on amazon Image 50: 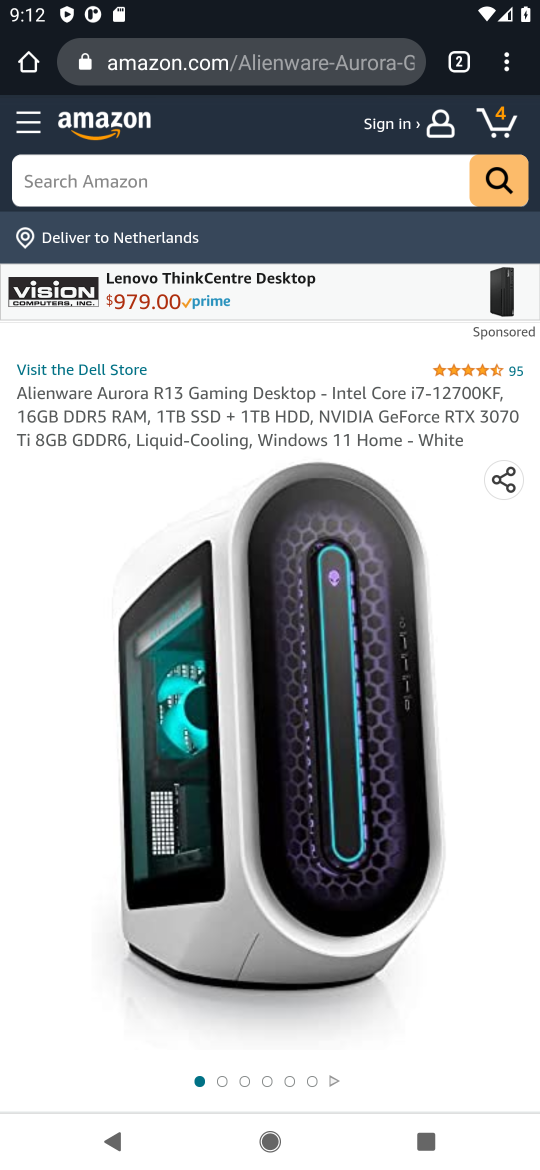
Step 50: press back button
Your task to perform on an android device: Clear the cart on amazon. Add alienware aurora to the cart on amazon Image 51: 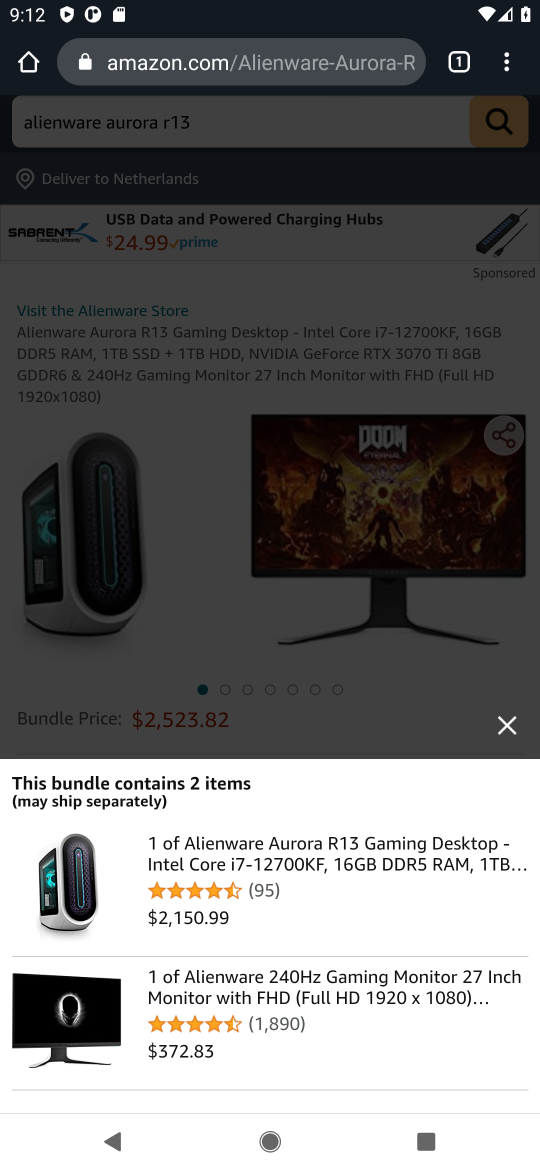
Step 51: click (511, 724)
Your task to perform on an android device: Clear the cart on amazon. Add alienware aurora to the cart on amazon Image 52: 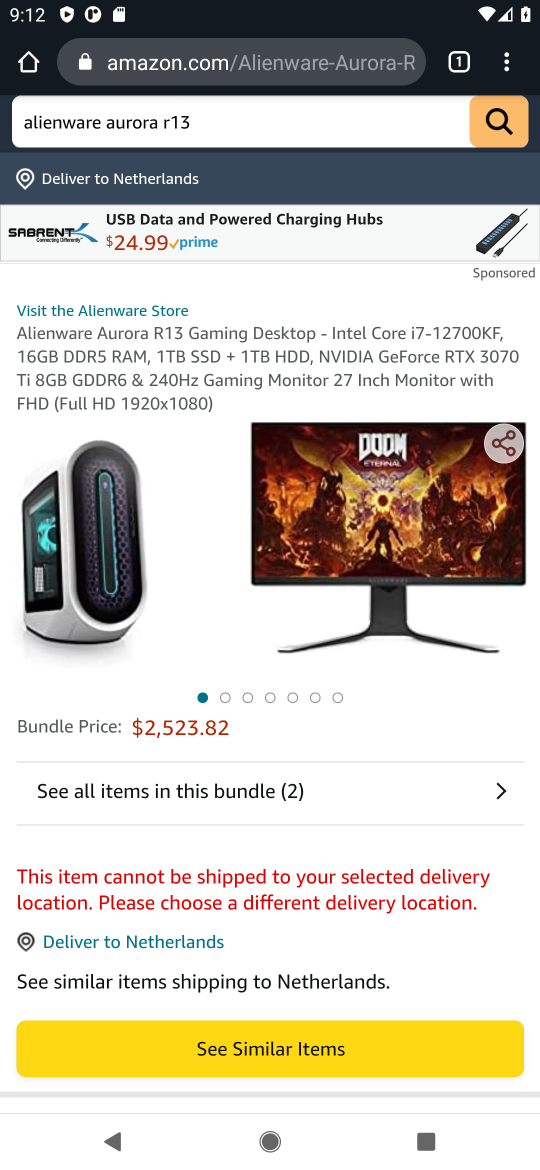
Step 52: drag from (156, 801) to (206, 213)
Your task to perform on an android device: Clear the cart on amazon. Add alienware aurora to the cart on amazon Image 53: 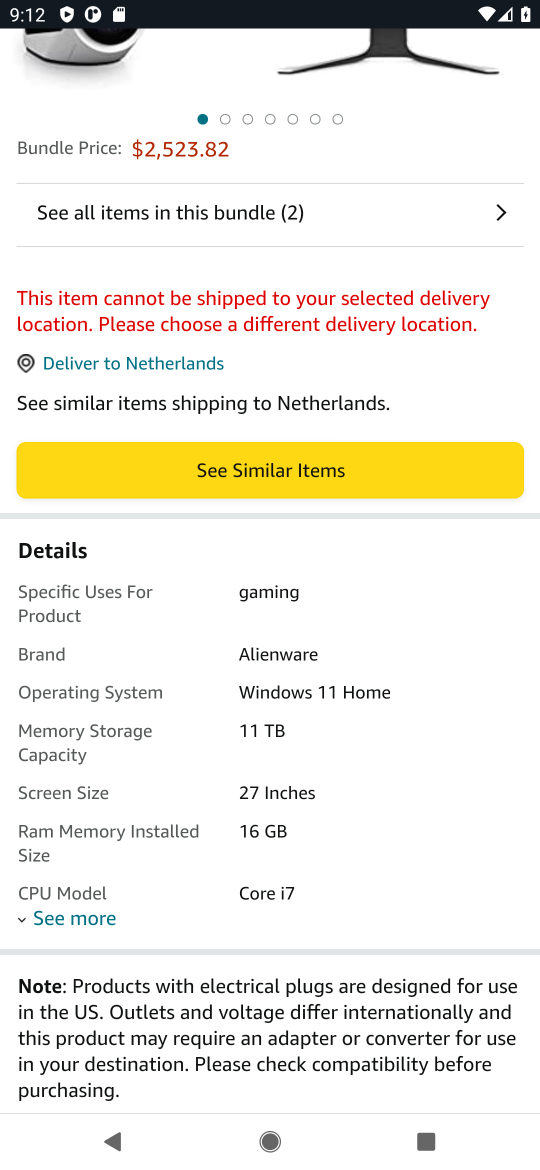
Step 53: drag from (279, 891) to (350, 325)
Your task to perform on an android device: Clear the cart on amazon. Add alienware aurora to the cart on amazon Image 54: 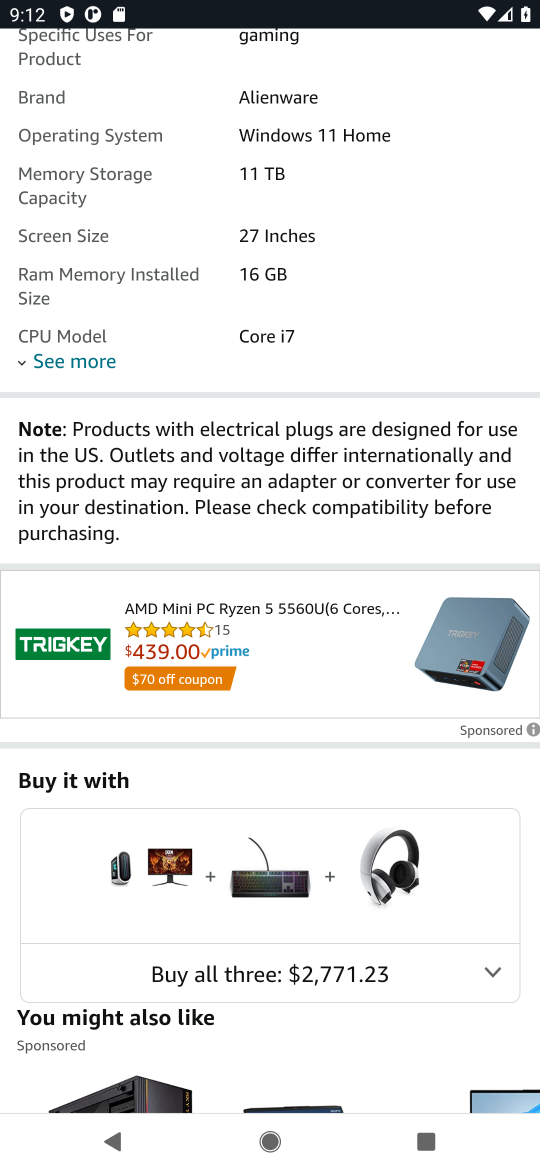
Step 54: drag from (252, 952) to (307, 448)
Your task to perform on an android device: Clear the cart on amazon. Add alienware aurora to the cart on amazon Image 55: 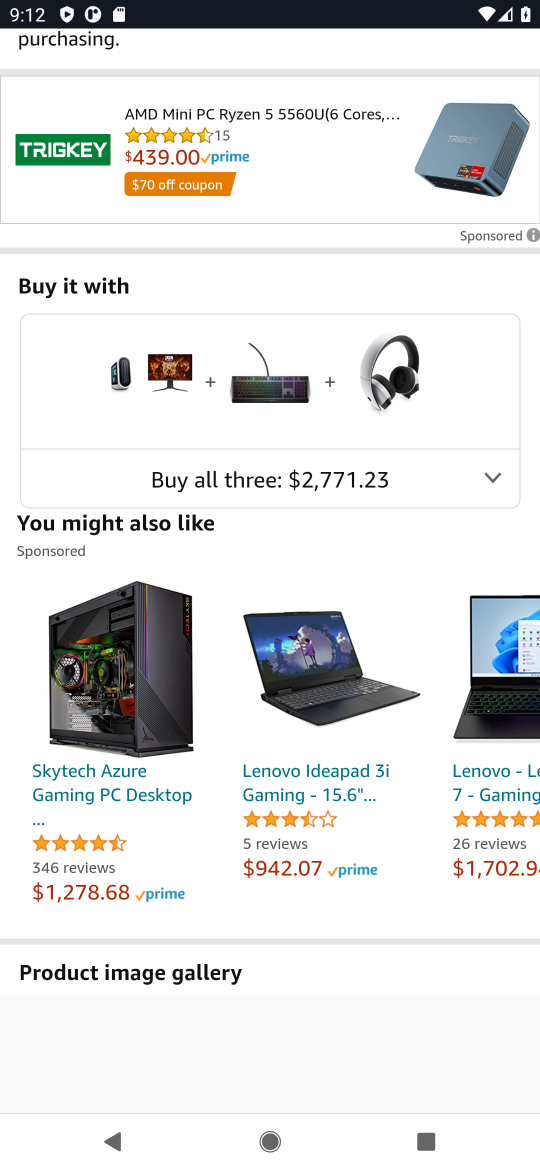
Step 55: drag from (248, 945) to (274, 538)
Your task to perform on an android device: Clear the cart on amazon. Add alienware aurora to the cart on amazon Image 56: 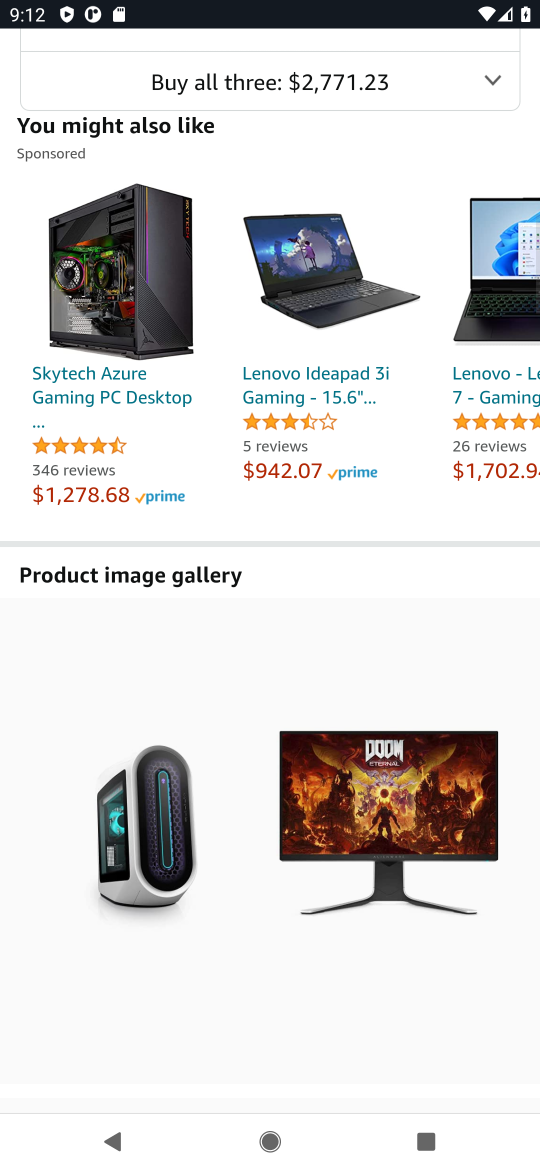
Step 56: drag from (248, 1001) to (281, 646)
Your task to perform on an android device: Clear the cart on amazon. Add alienware aurora to the cart on amazon Image 57: 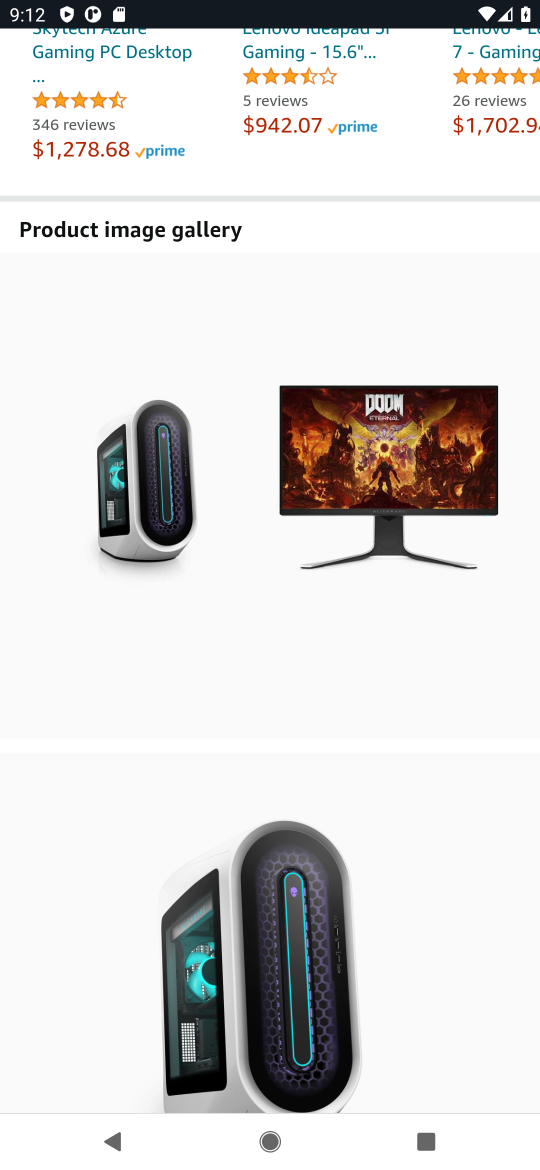
Step 57: drag from (277, 934) to (280, 600)
Your task to perform on an android device: Clear the cart on amazon. Add alienware aurora to the cart on amazon Image 58: 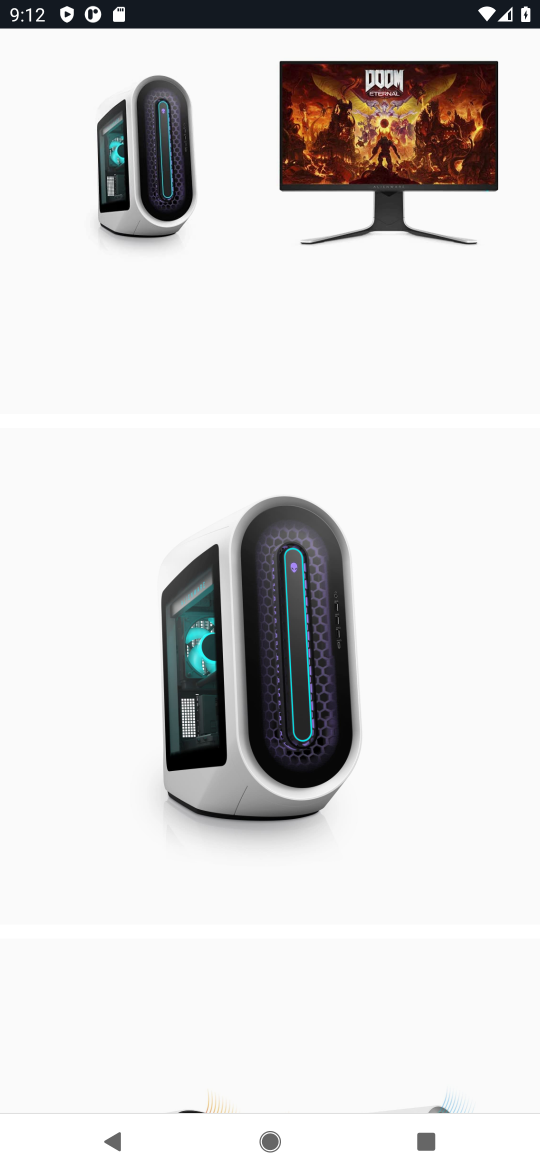
Step 58: drag from (174, 339) to (2, 215)
Your task to perform on an android device: Clear the cart on amazon. Add alienware aurora to the cart on amazon Image 59: 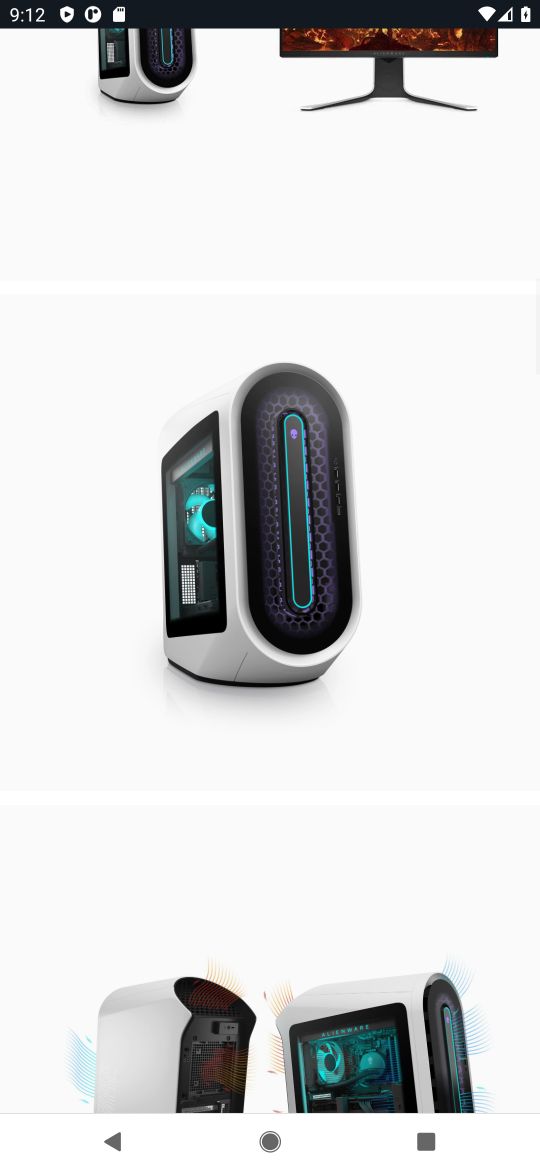
Step 59: press back button
Your task to perform on an android device: Clear the cart on amazon. Add alienware aurora to the cart on amazon Image 60: 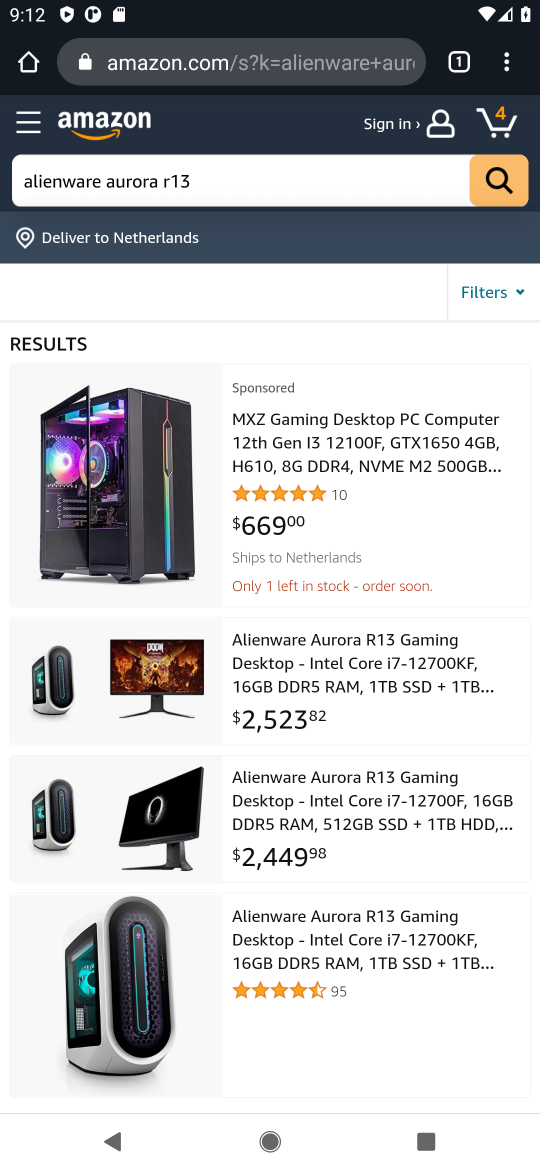
Step 60: click (307, 815)
Your task to perform on an android device: Clear the cart on amazon. Add alienware aurora to the cart on amazon Image 61: 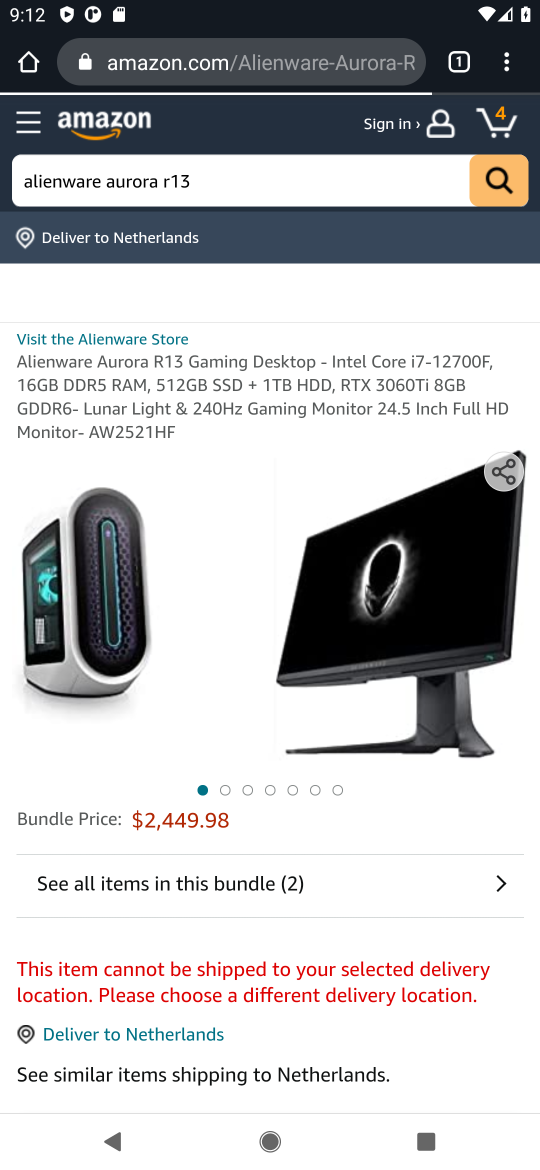
Step 61: task complete